Your task to perform on an android device: View the shopping cart on target.com. Add "logitech g pro" to the cart on target.com, then select checkout. Image 0: 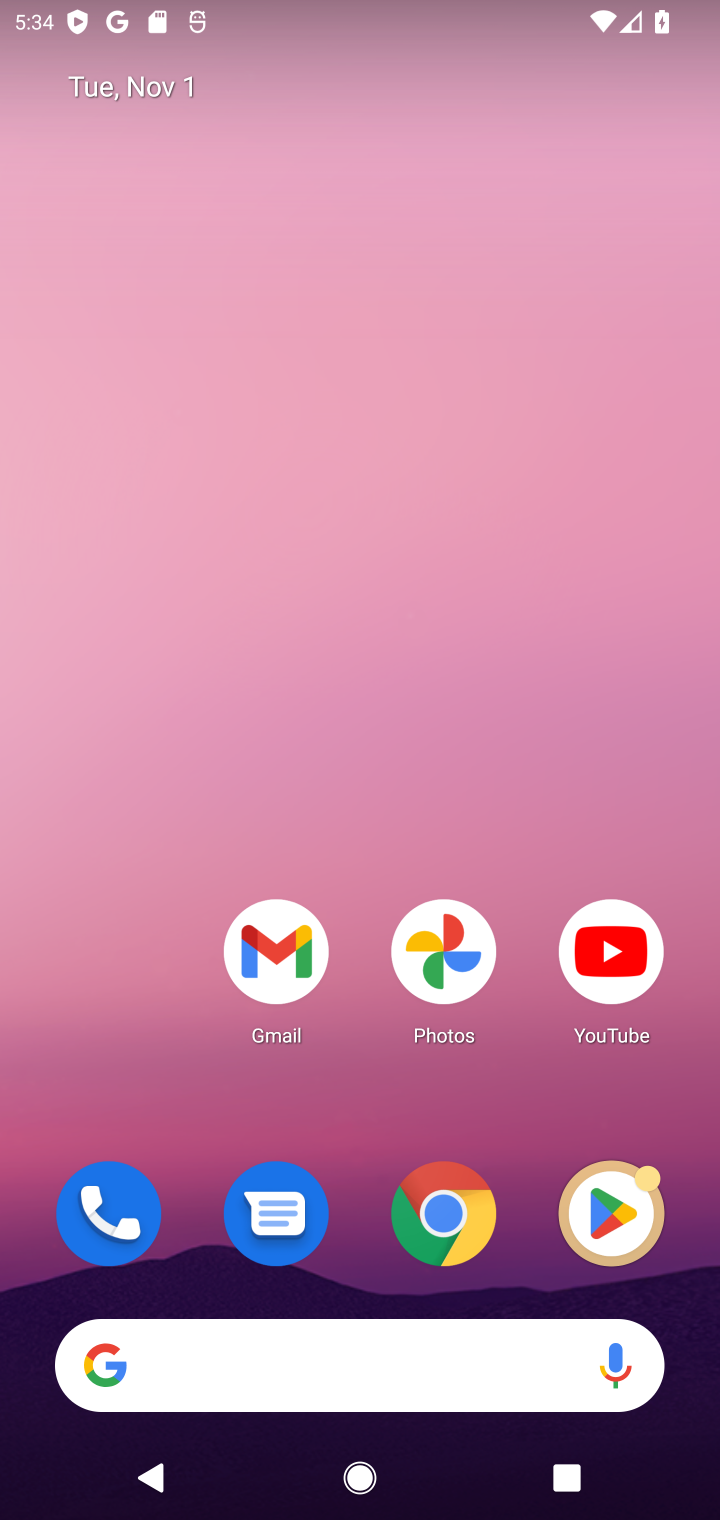
Step 0: click (445, 1221)
Your task to perform on an android device: View the shopping cart on target.com. Add "logitech g pro" to the cart on target.com, then select checkout. Image 1: 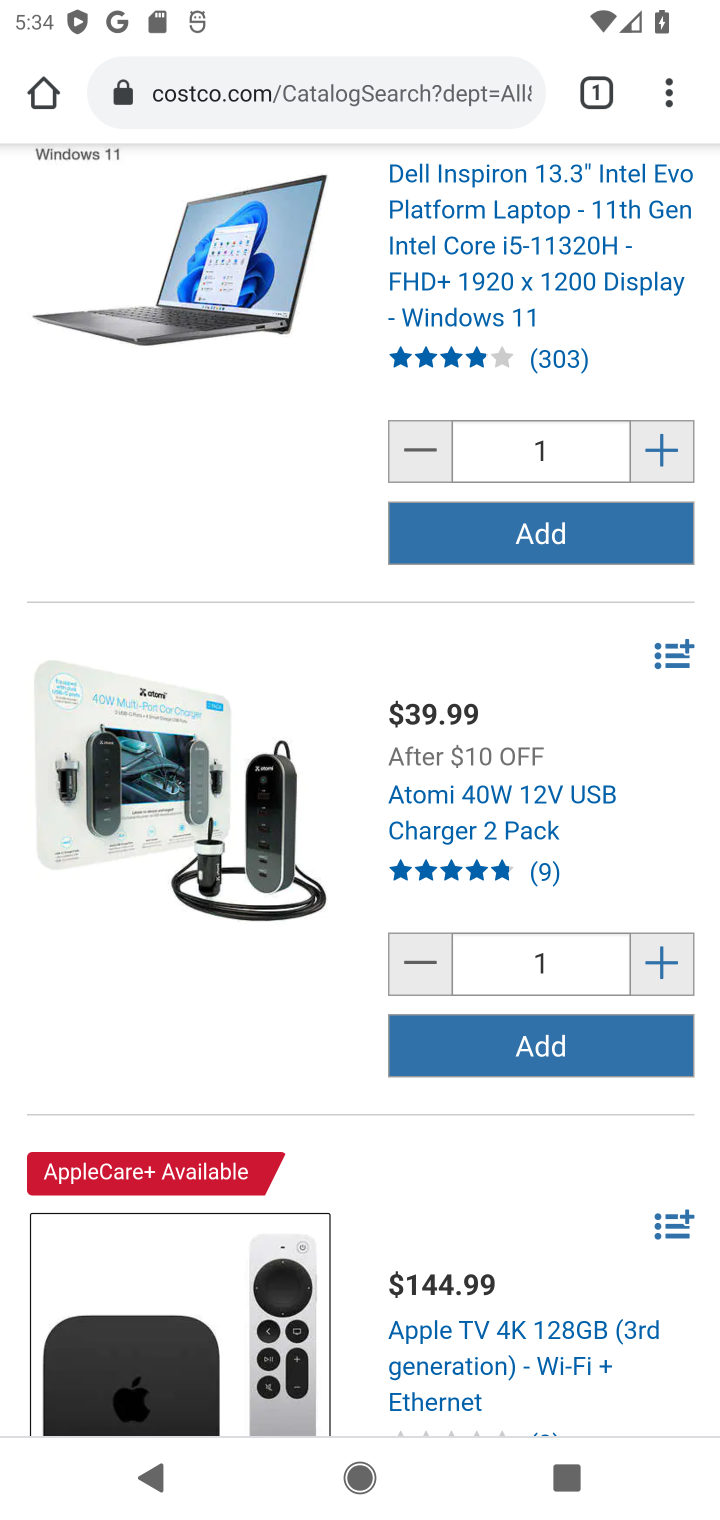
Step 1: click (359, 102)
Your task to perform on an android device: View the shopping cart on target.com. Add "logitech g pro" to the cart on target.com, then select checkout. Image 2: 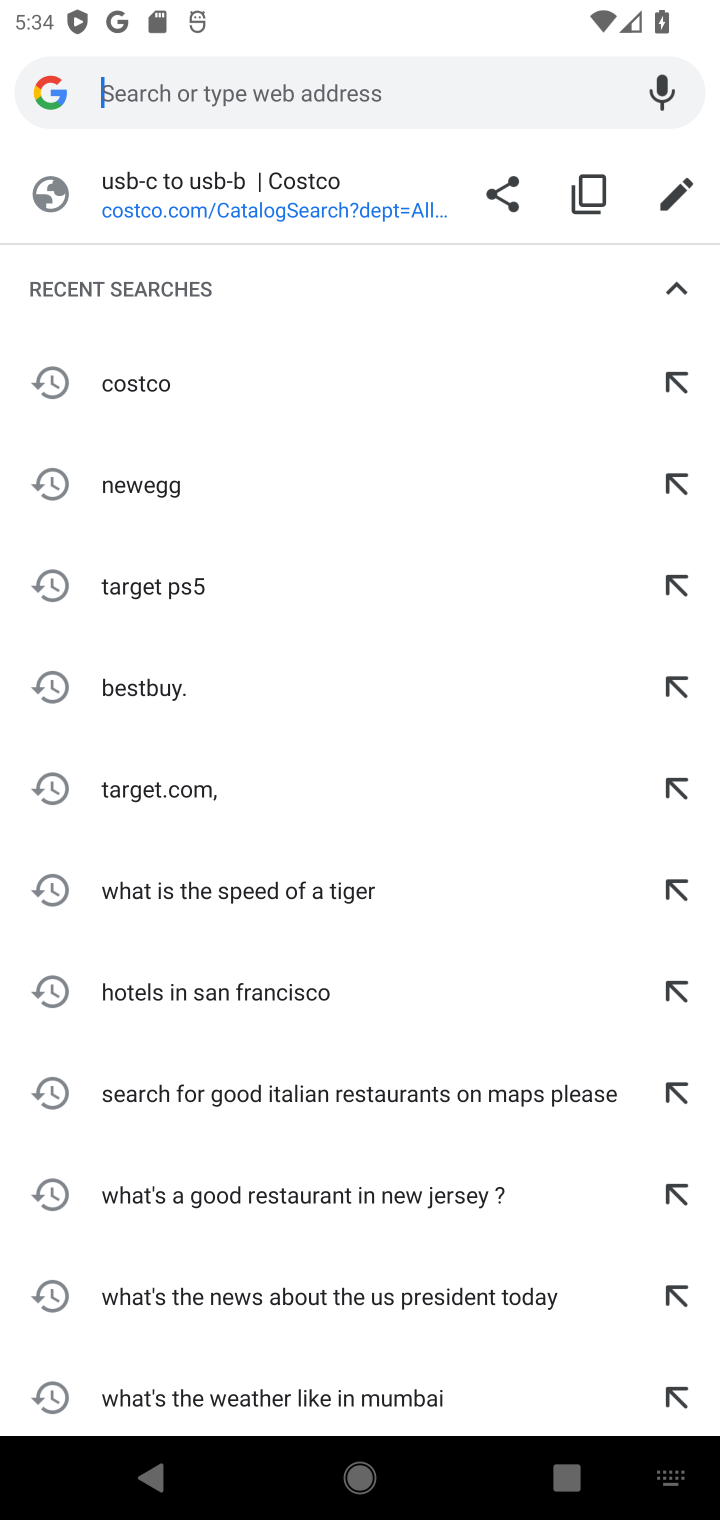
Step 2: click (137, 796)
Your task to perform on an android device: View the shopping cart on target.com. Add "logitech g pro" to the cart on target.com, then select checkout. Image 3: 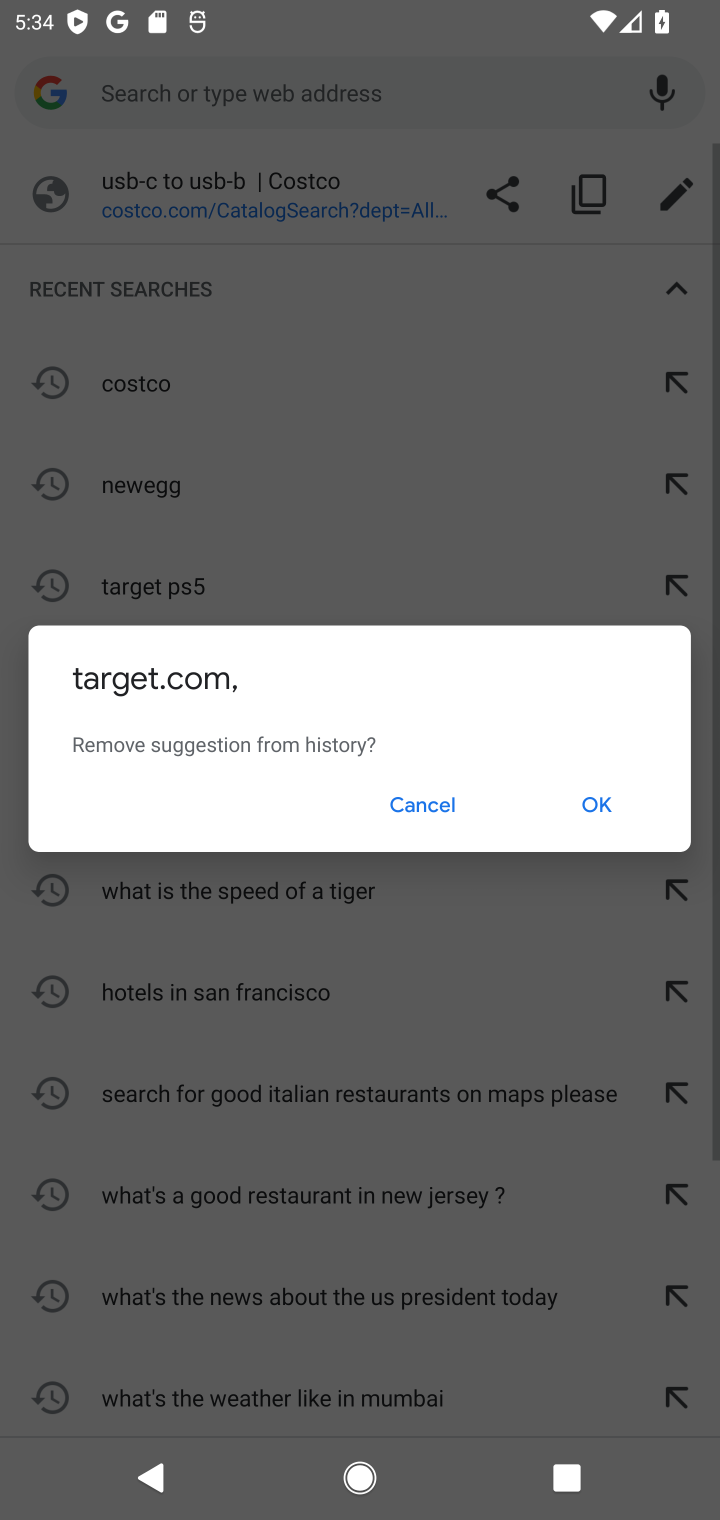
Step 3: click (398, 816)
Your task to perform on an android device: View the shopping cart on target.com. Add "logitech g pro" to the cart on target.com, then select checkout. Image 4: 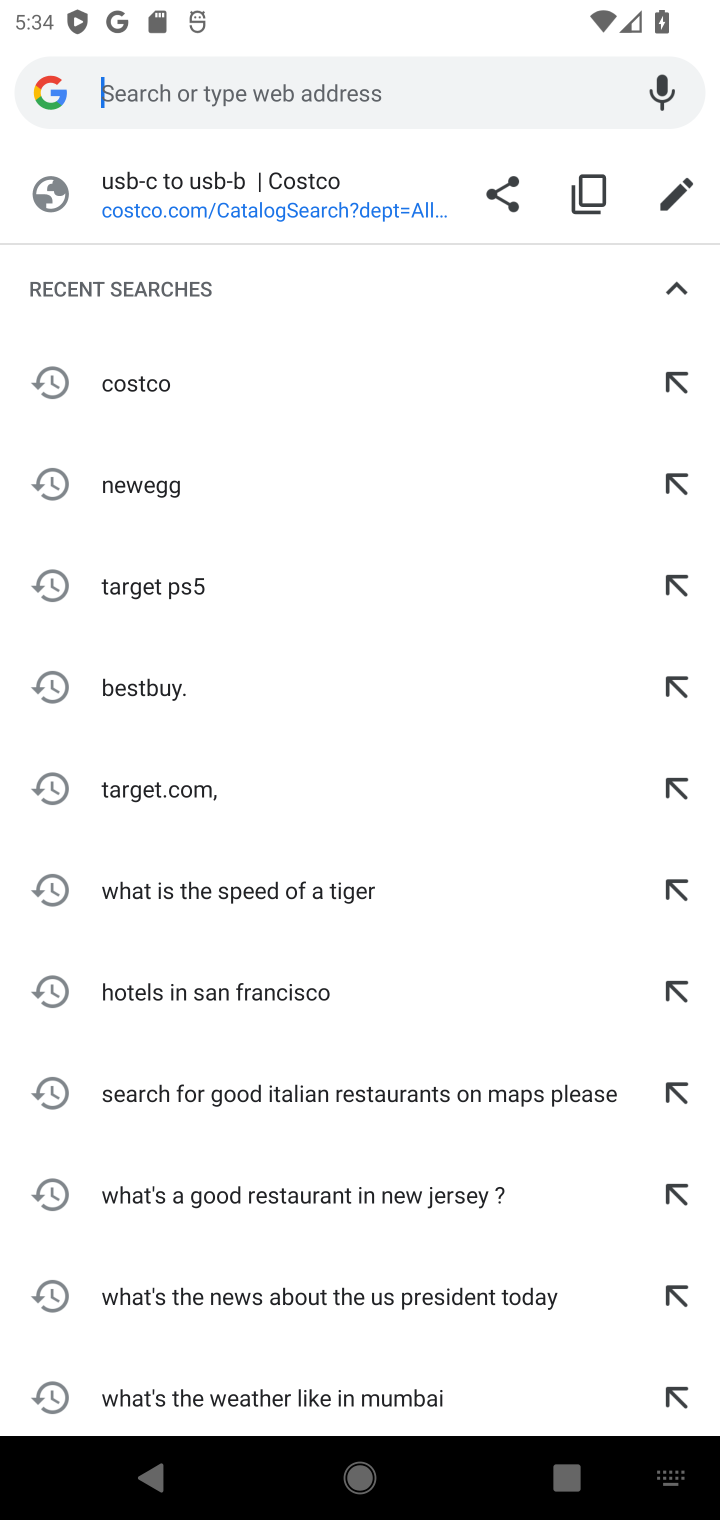
Step 4: click (209, 83)
Your task to perform on an android device: View the shopping cart on target.com. Add "logitech g pro" to the cart on target.com, then select checkout. Image 5: 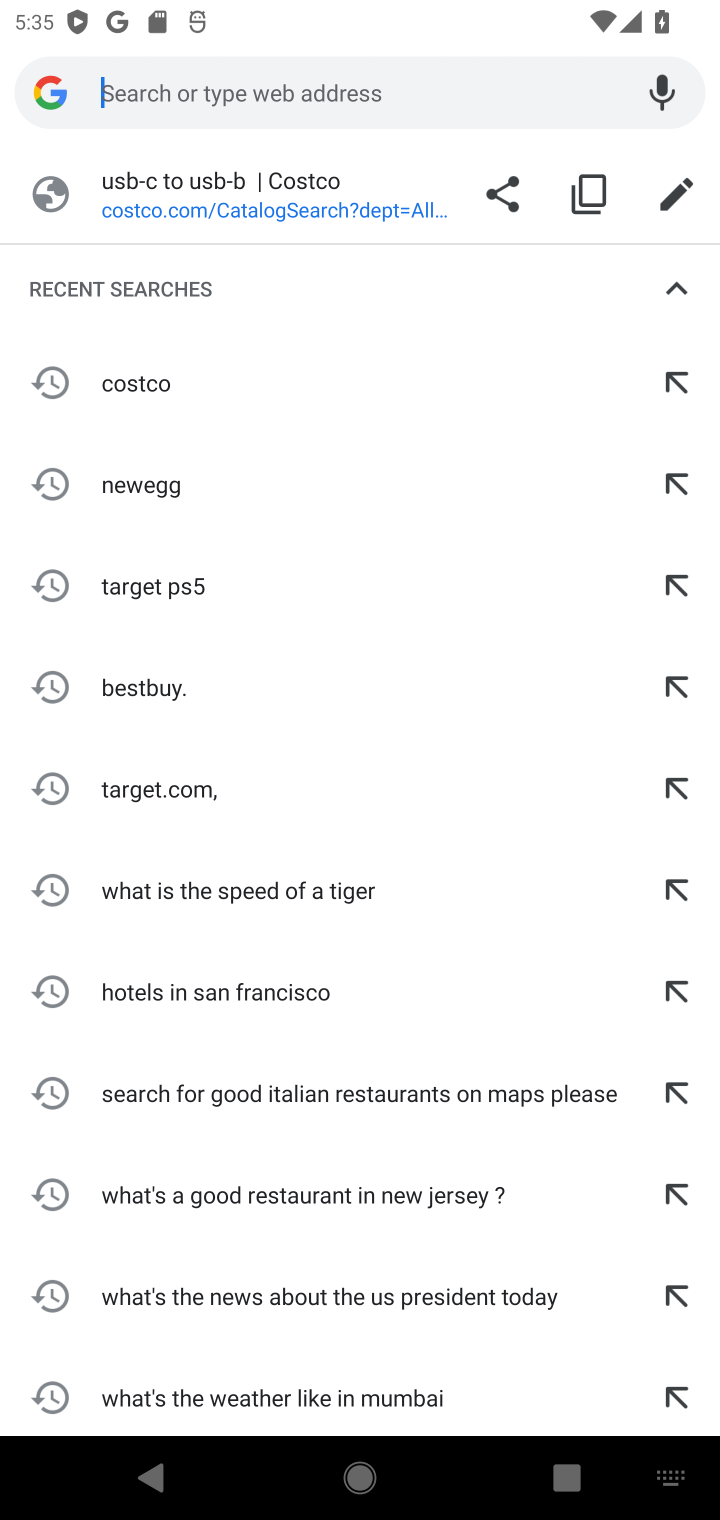
Step 5: type "target.com"
Your task to perform on an android device: View the shopping cart on target.com. Add "logitech g pro" to the cart on target.com, then select checkout. Image 6: 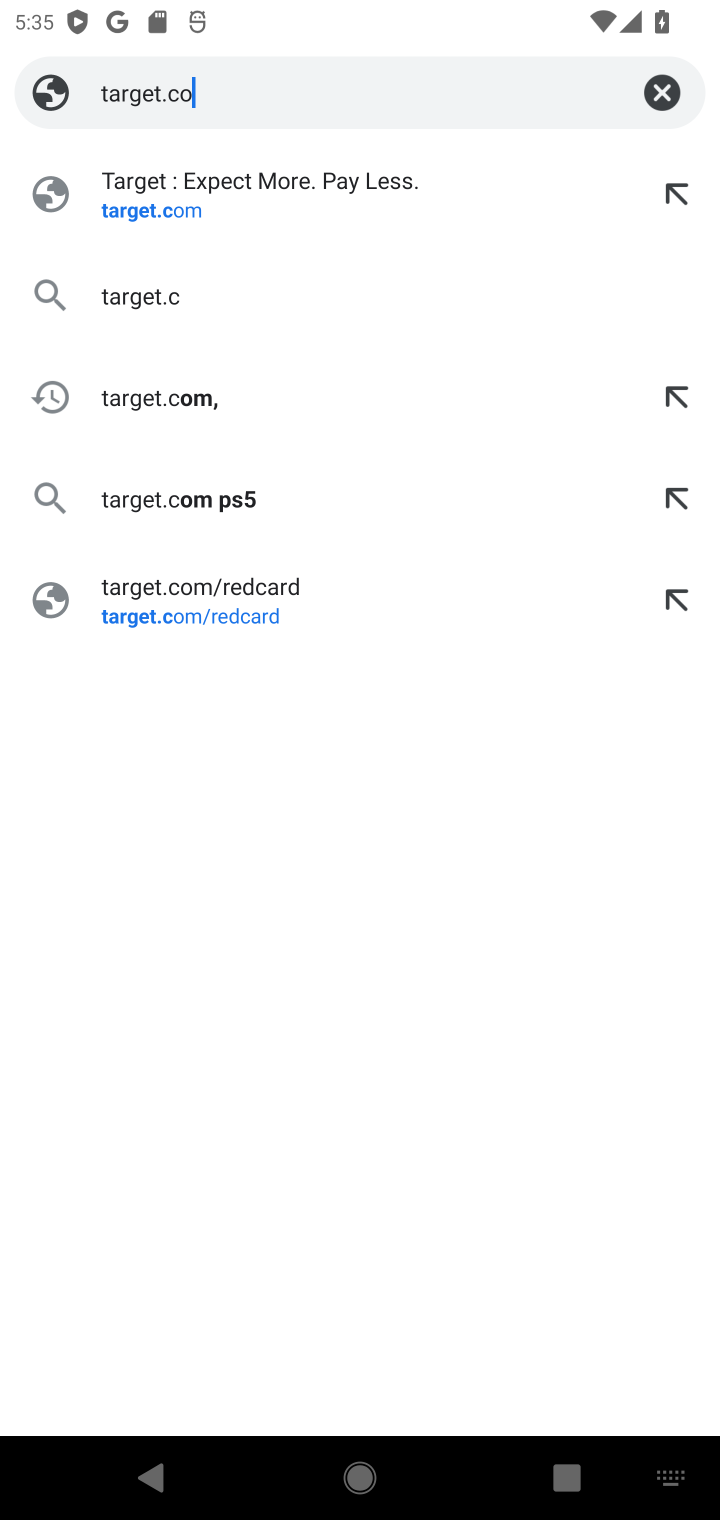
Step 6: type ""
Your task to perform on an android device: View the shopping cart on target.com. Add "logitech g pro" to the cart on target.com, then select checkout. Image 7: 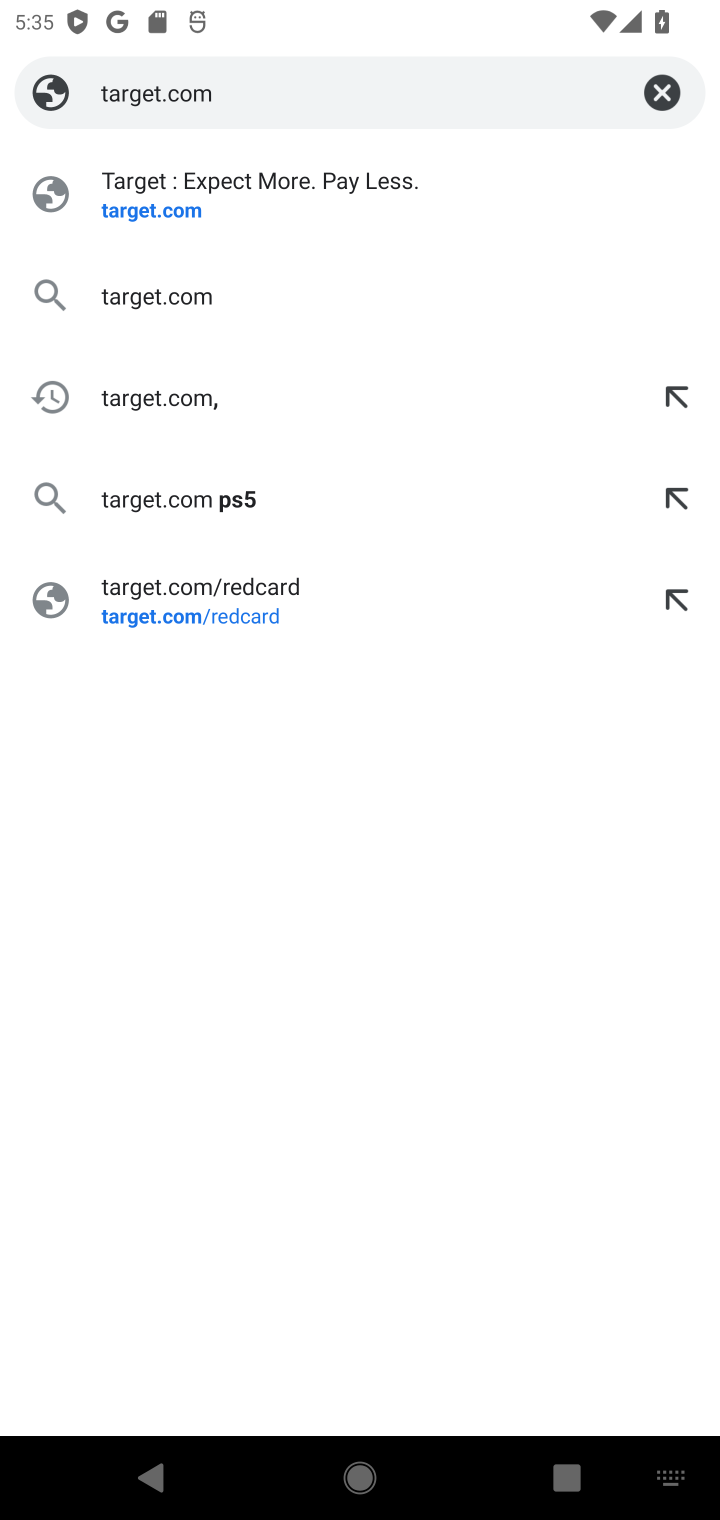
Step 7: click (266, 169)
Your task to perform on an android device: View the shopping cart on target.com. Add "logitech g pro" to the cart on target.com, then select checkout. Image 8: 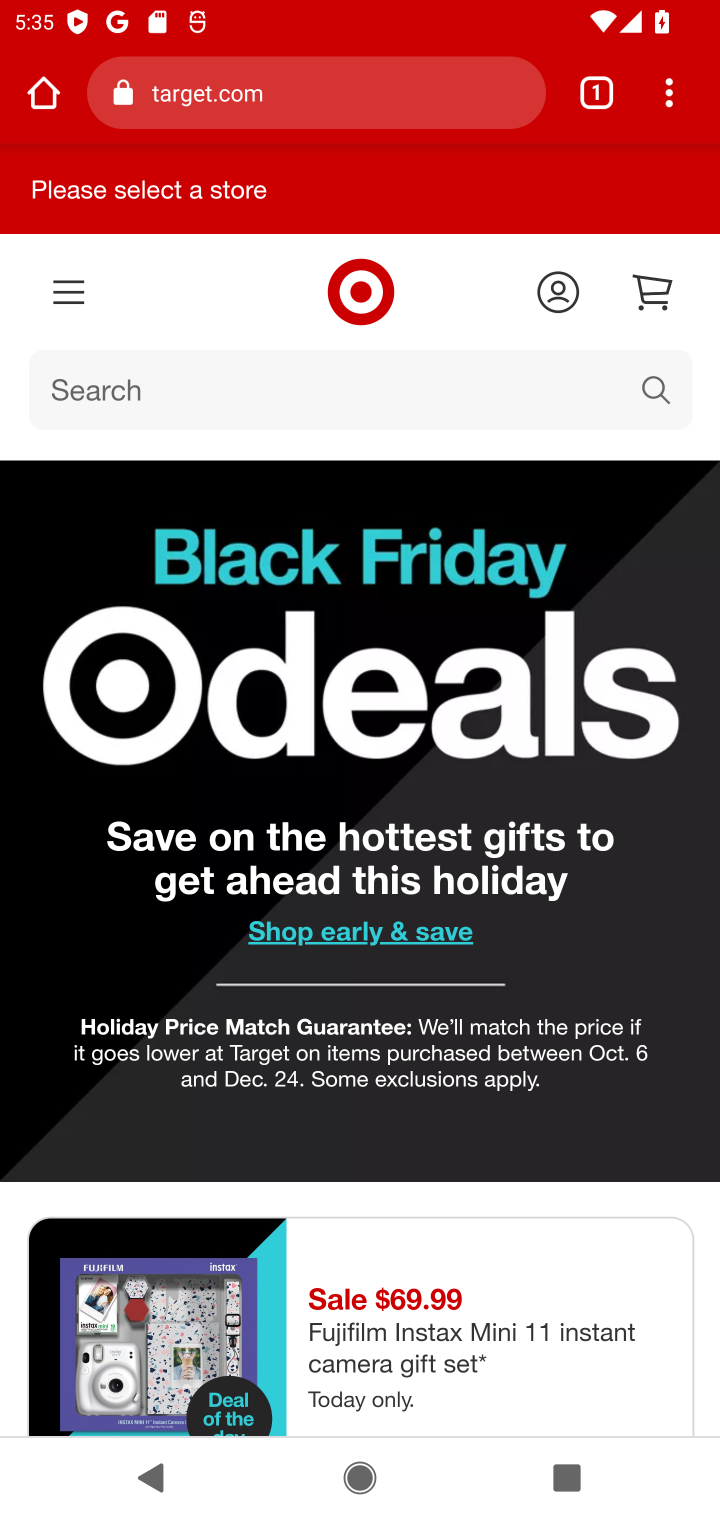
Step 8: click (291, 380)
Your task to perform on an android device: View the shopping cart on target.com. Add "logitech g pro" to the cart on target.com, then select checkout. Image 9: 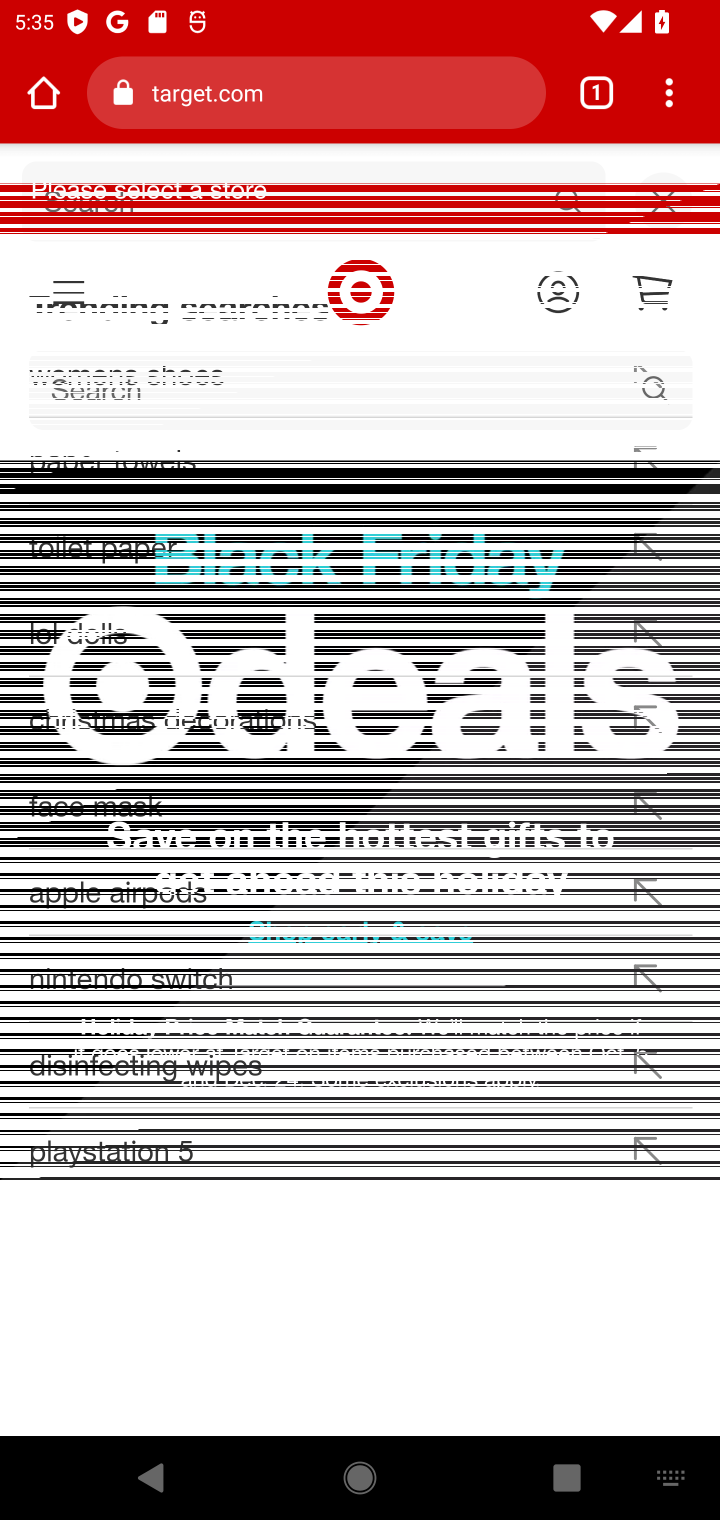
Step 9: type "logitech g pro"
Your task to perform on an android device: View the shopping cart on target.com. Add "logitech g pro" to the cart on target.com, then select checkout. Image 10: 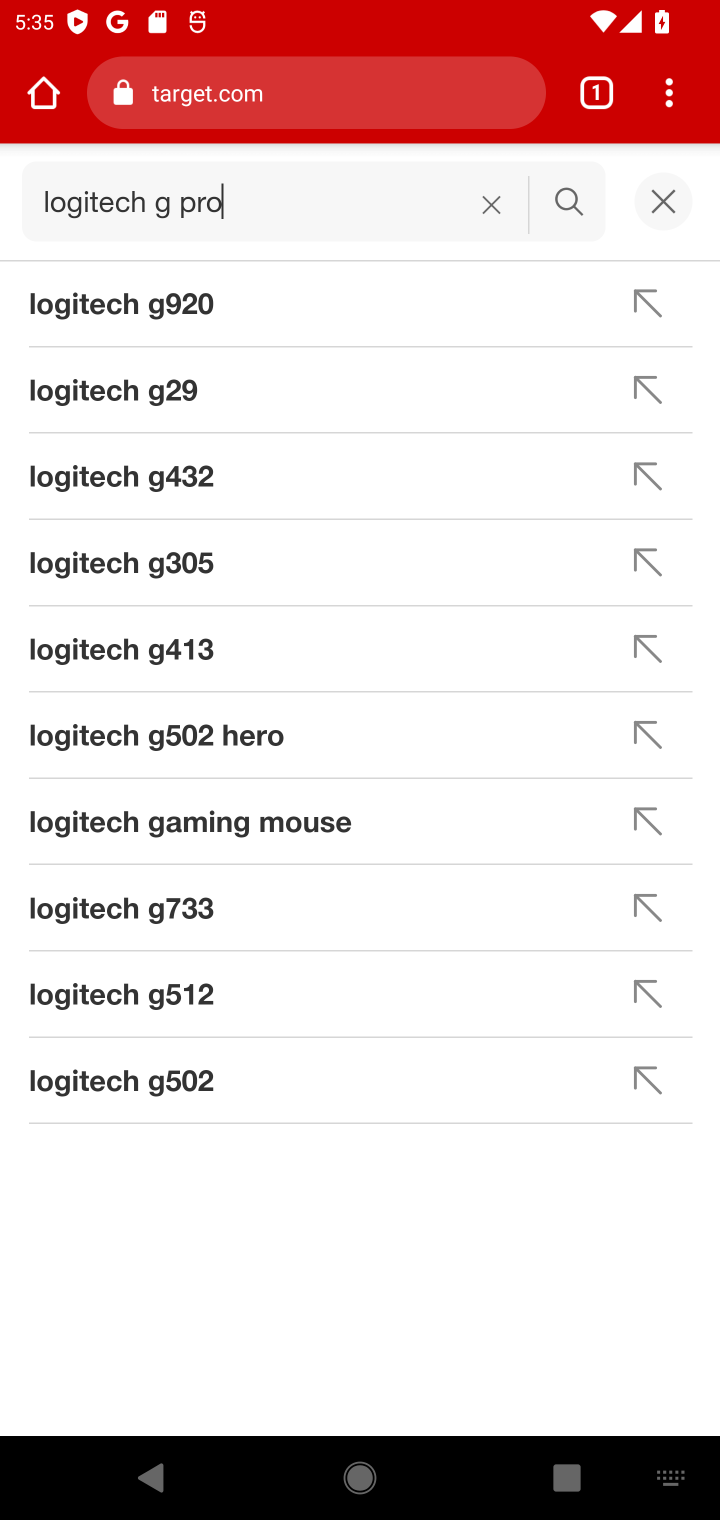
Step 10: click (226, 289)
Your task to perform on an android device: View the shopping cart on target.com. Add "logitech g pro" to the cart on target.com, then select checkout. Image 11: 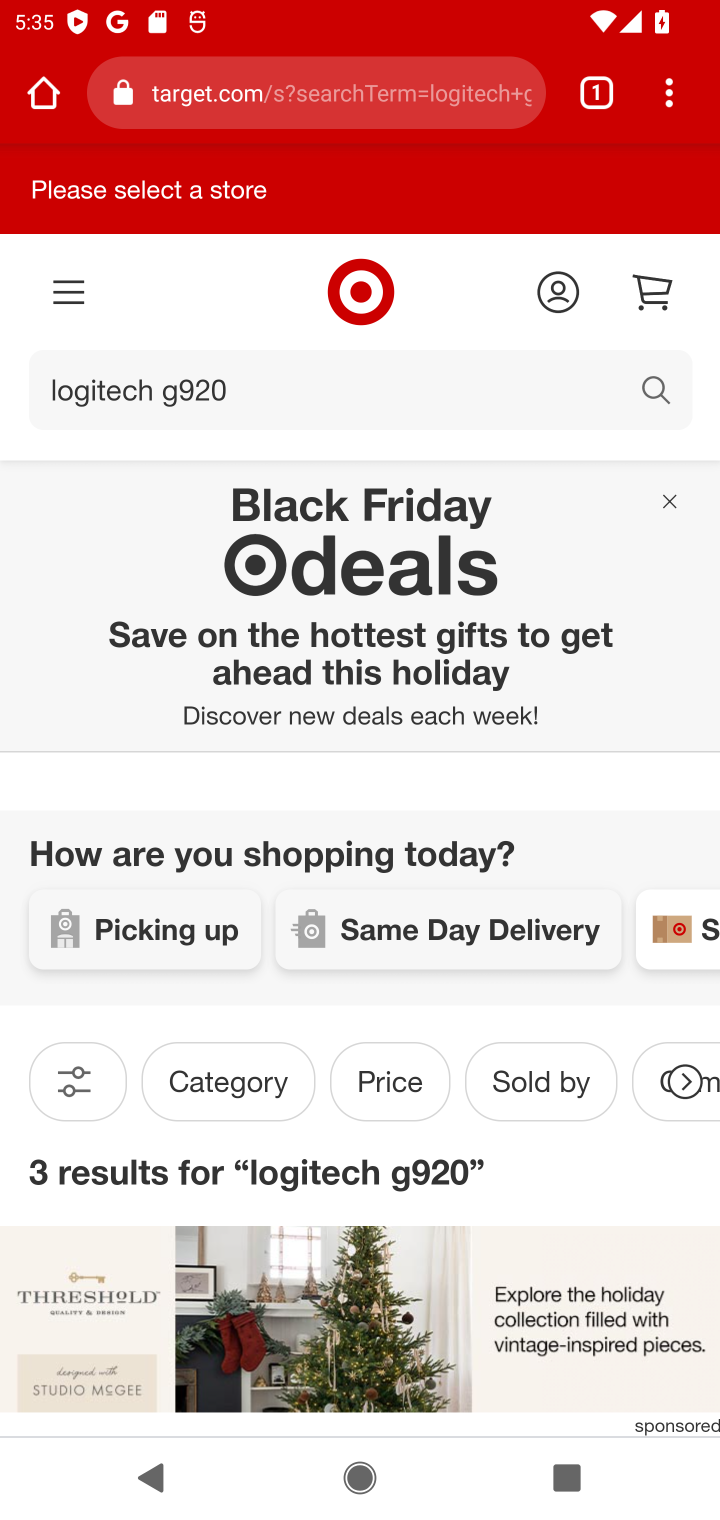
Step 11: drag from (477, 607) to (537, 206)
Your task to perform on an android device: View the shopping cart on target.com. Add "logitech g pro" to the cart on target.com, then select checkout. Image 12: 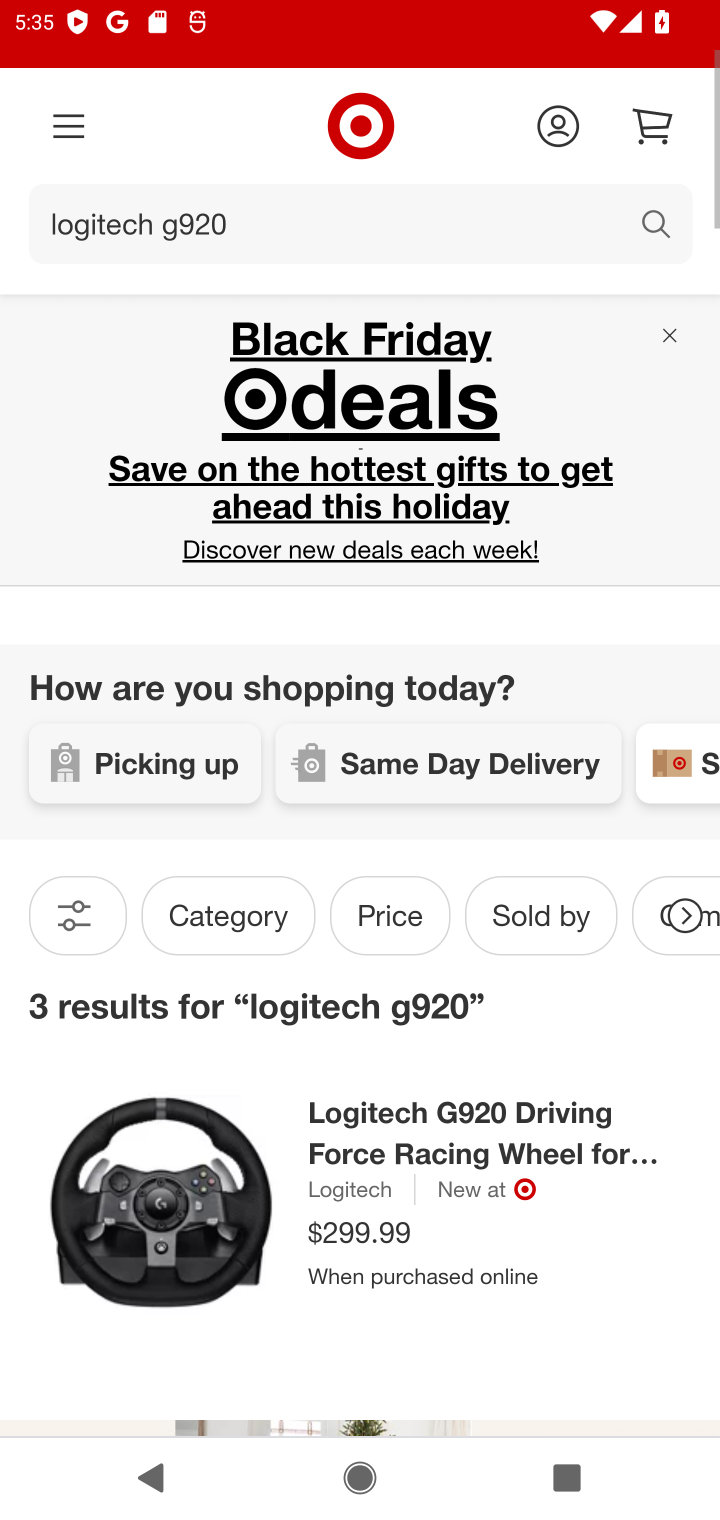
Step 12: drag from (490, 805) to (546, 605)
Your task to perform on an android device: View the shopping cart on target.com. Add "logitech g pro" to the cart on target.com, then select checkout. Image 13: 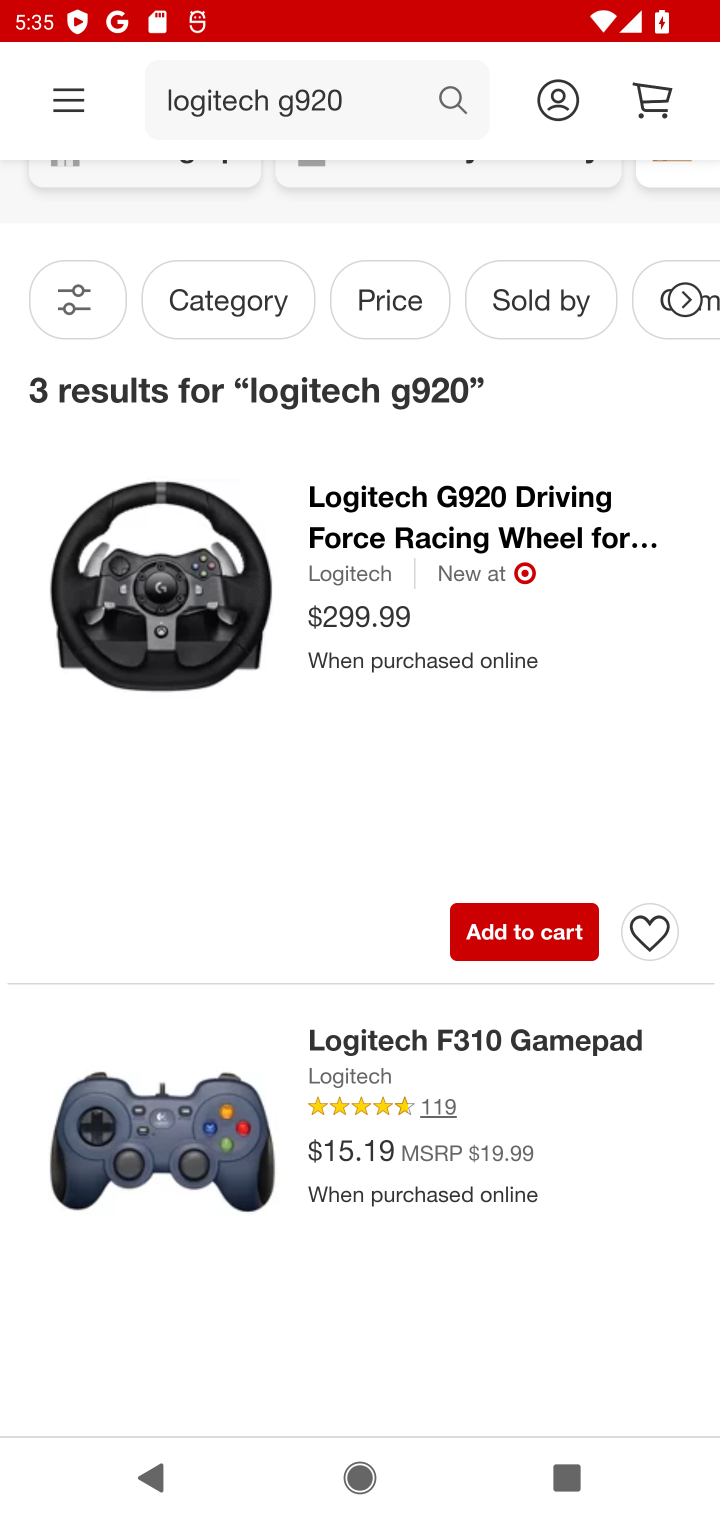
Step 13: click (556, 1071)
Your task to perform on an android device: View the shopping cart on target.com. Add "logitech g pro" to the cart on target.com, then select checkout. Image 14: 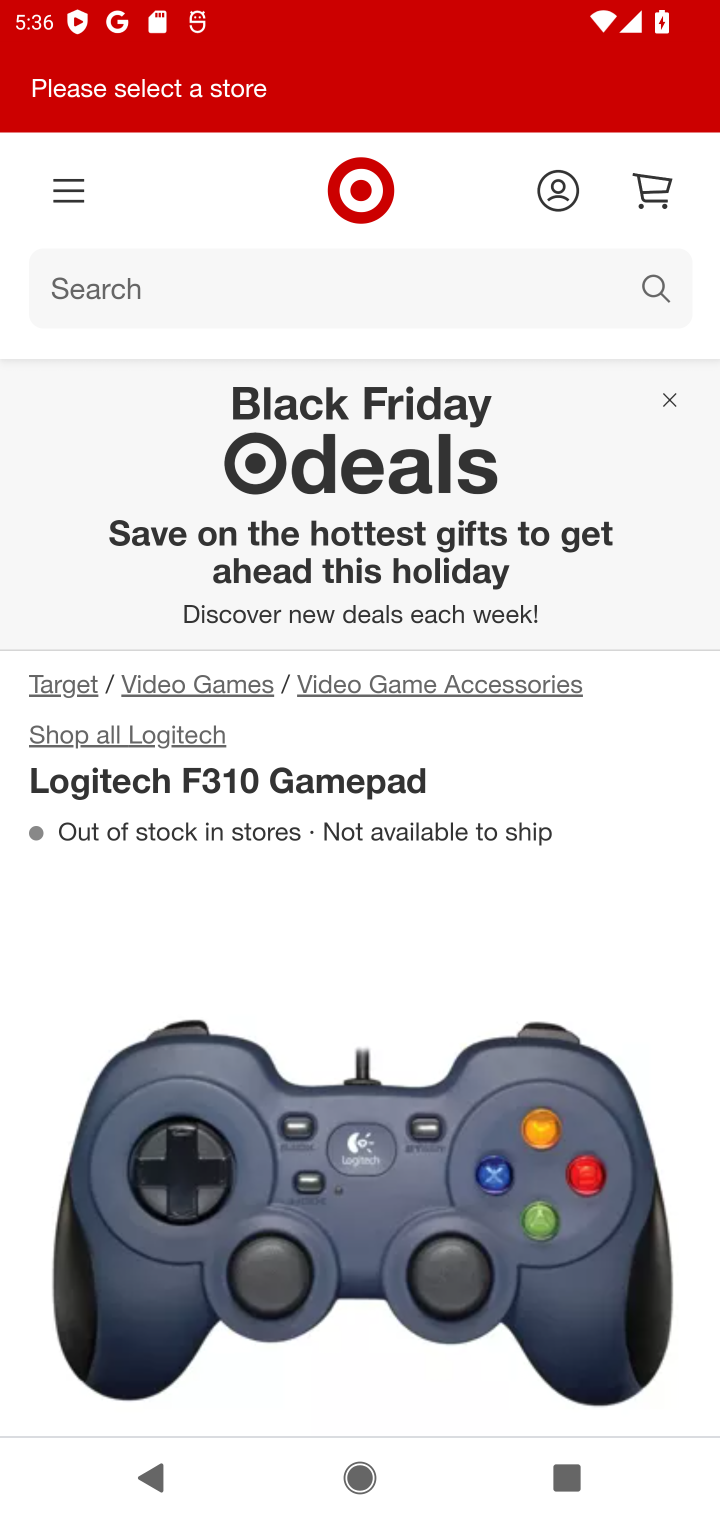
Step 14: drag from (495, 1199) to (560, 471)
Your task to perform on an android device: View the shopping cart on target.com. Add "logitech g pro" to the cart on target.com, then select checkout. Image 15: 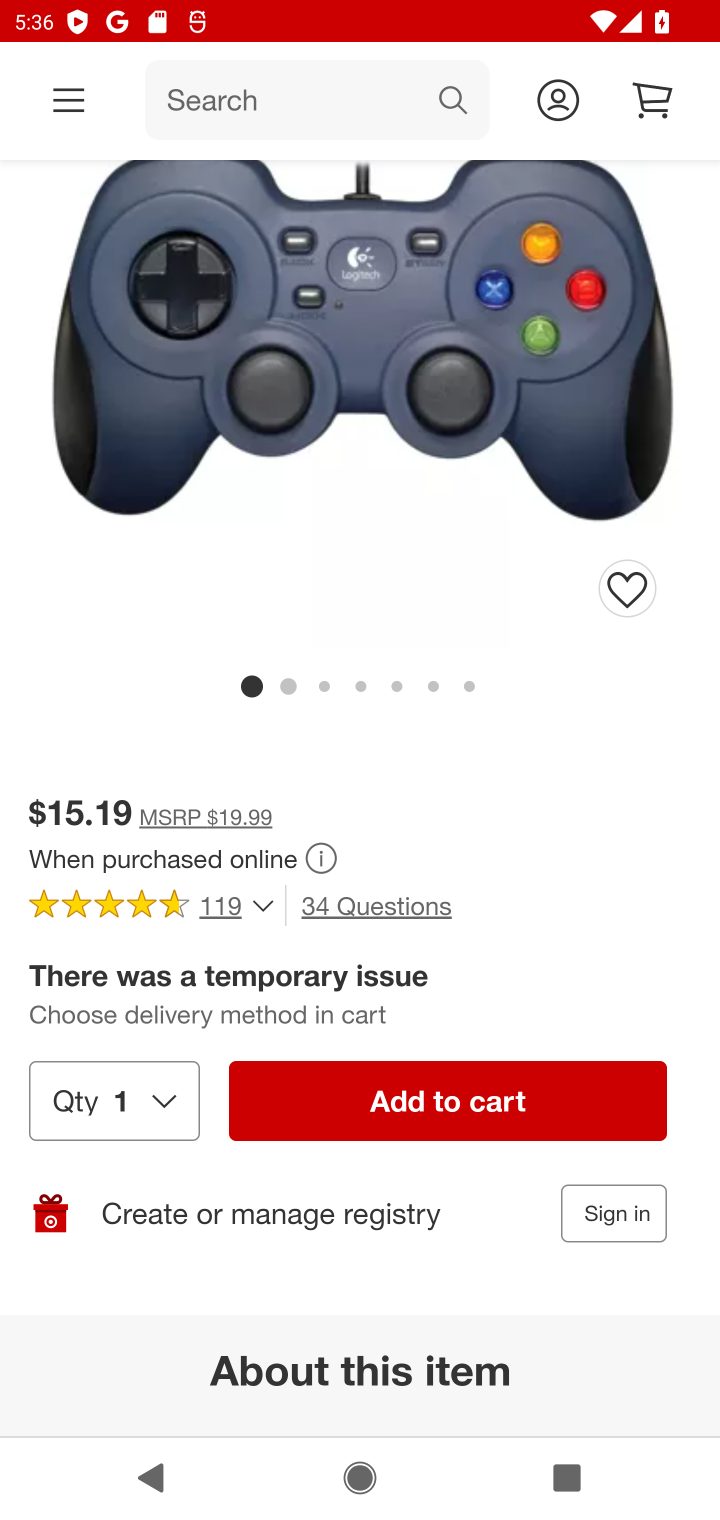
Step 15: click (394, 1065)
Your task to perform on an android device: View the shopping cart on target.com. Add "logitech g pro" to the cart on target.com, then select checkout. Image 16: 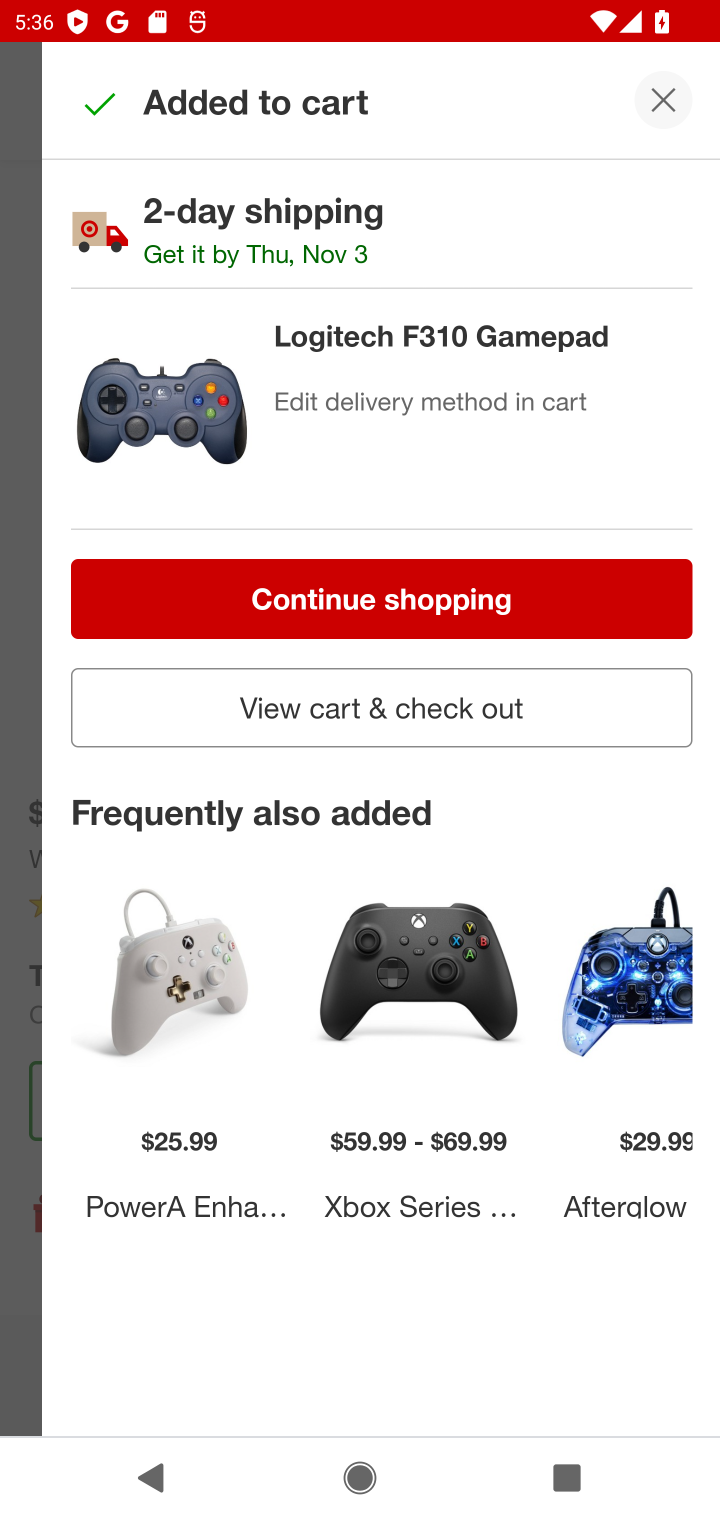
Step 16: click (500, 619)
Your task to perform on an android device: View the shopping cart on target.com. Add "logitech g pro" to the cart on target.com, then select checkout. Image 17: 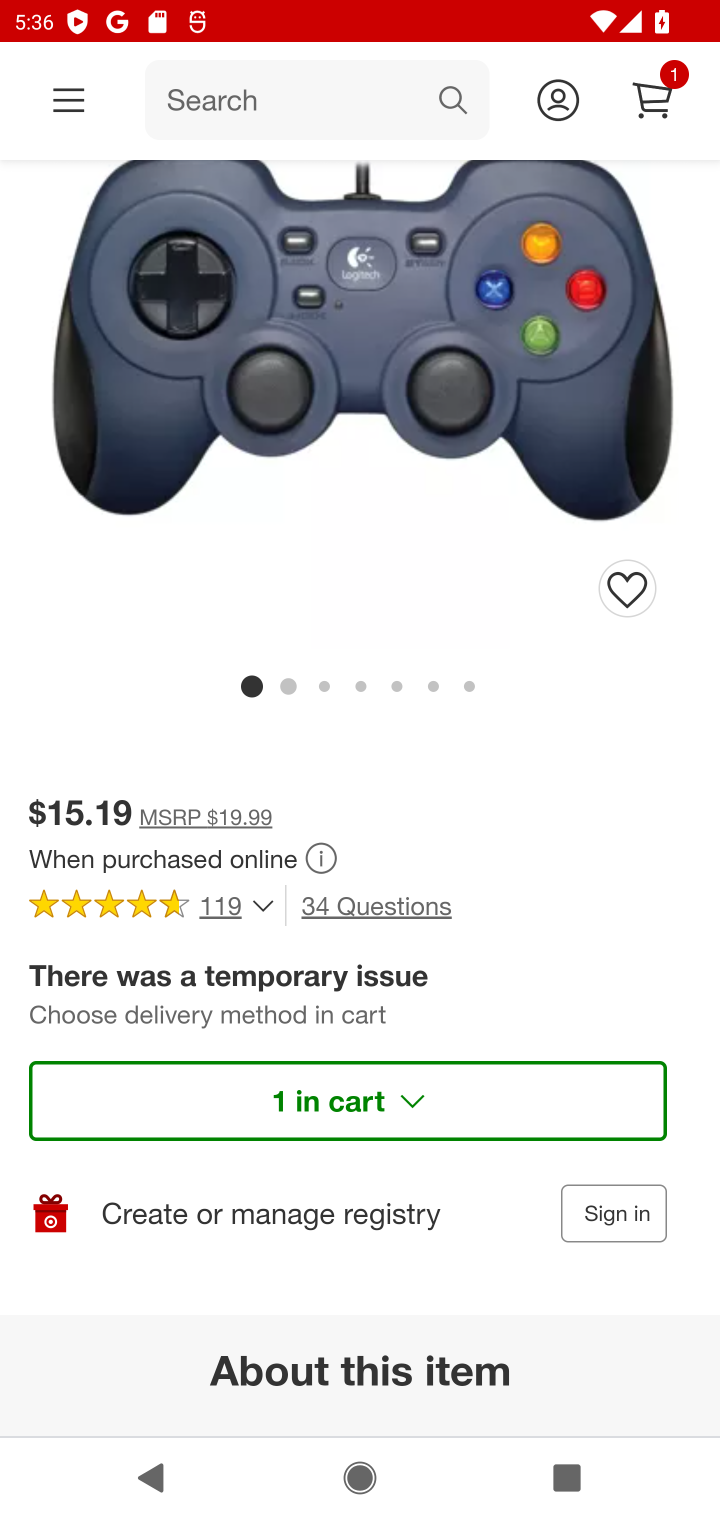
Step 17: click (642, 112)
Your task to perform on an android device: View the shopping cart on target.com. Add "logitech g pro" to the cart on target.com, then select checkout. Image 18: 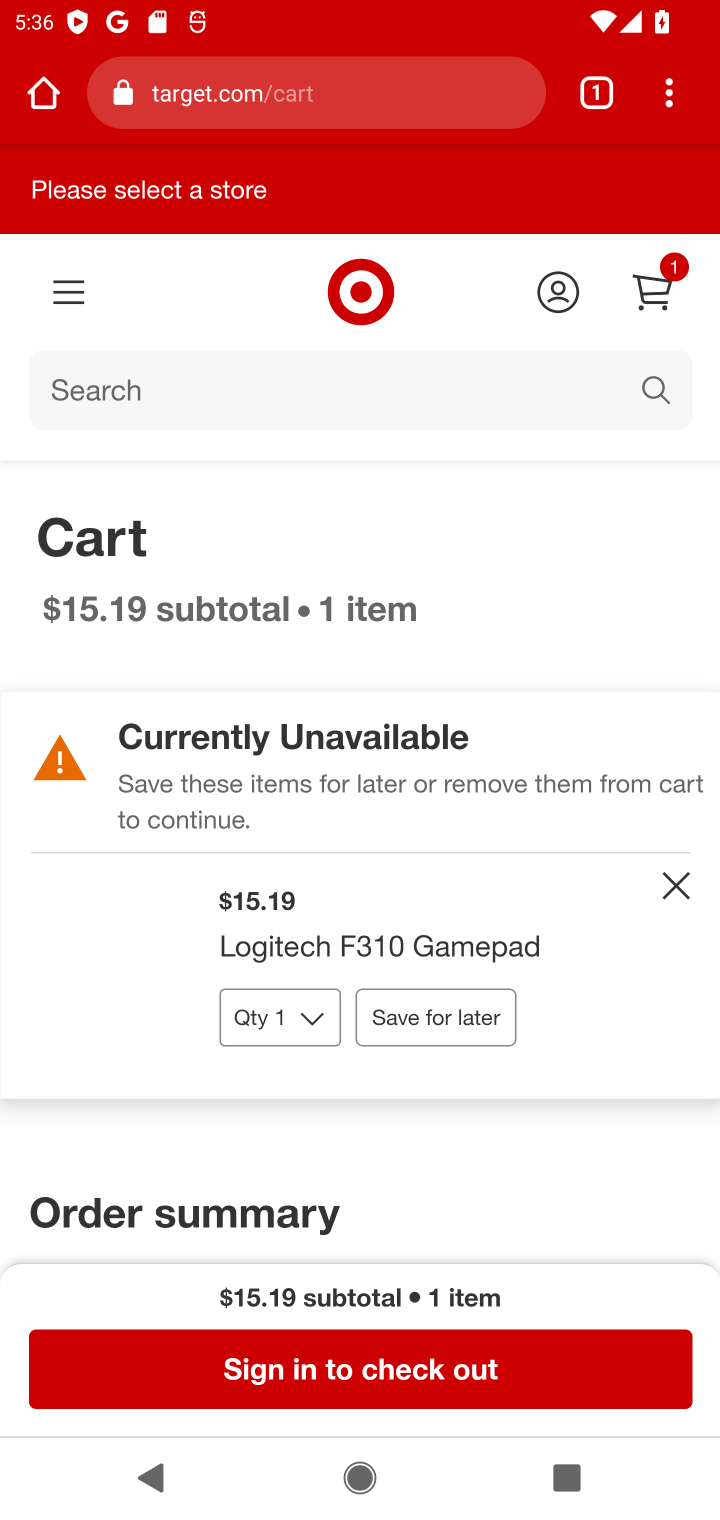
Step 18: click (681, 883)
Your task to perform on an android device: View the shopping cart on target.com. Add "logitech g pro" to the cart on target.com, then select checkout. Image 19: 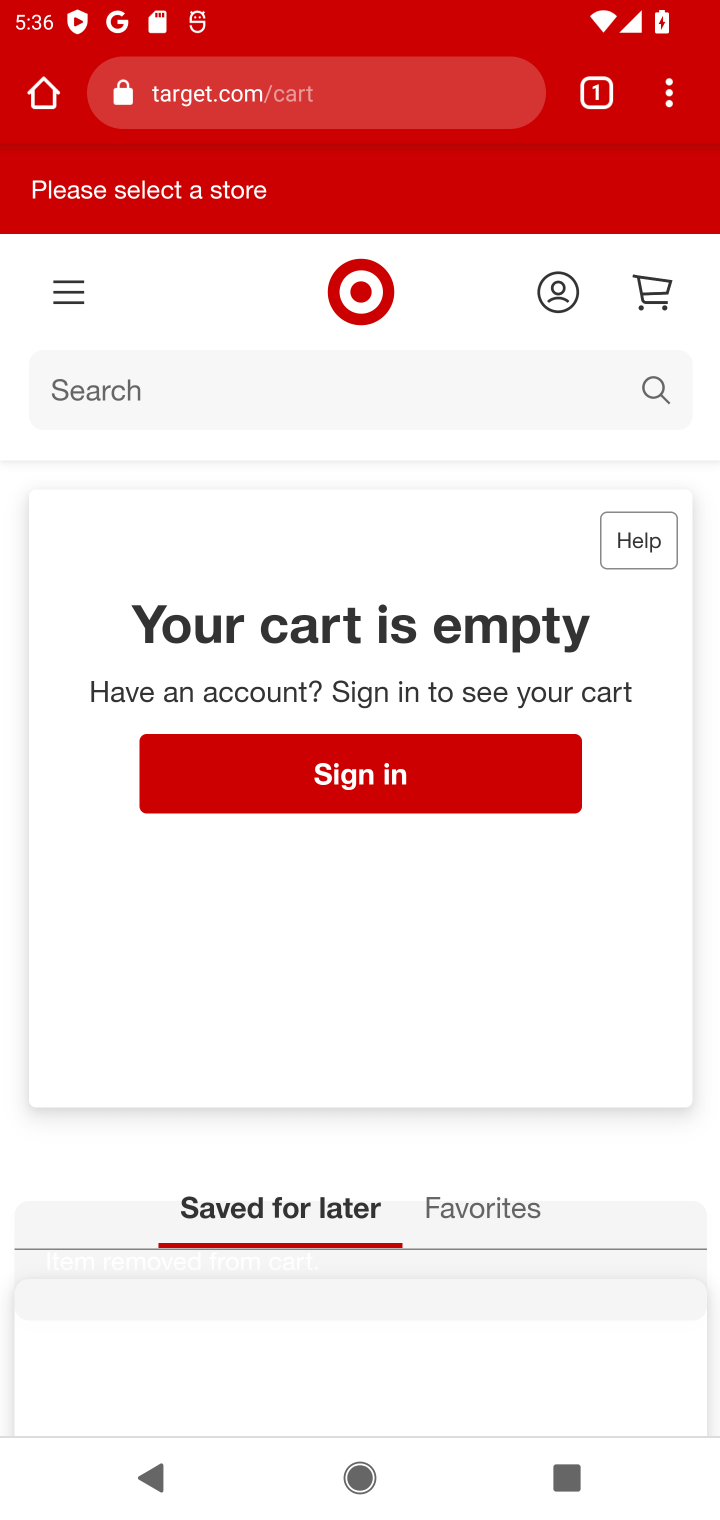
Step 19: click (325, 381)
Your task to perform on an android device: View the shopping cart on target.com. Add "logitech g pro" to the cart on target.com, then select checkout. Image 20: 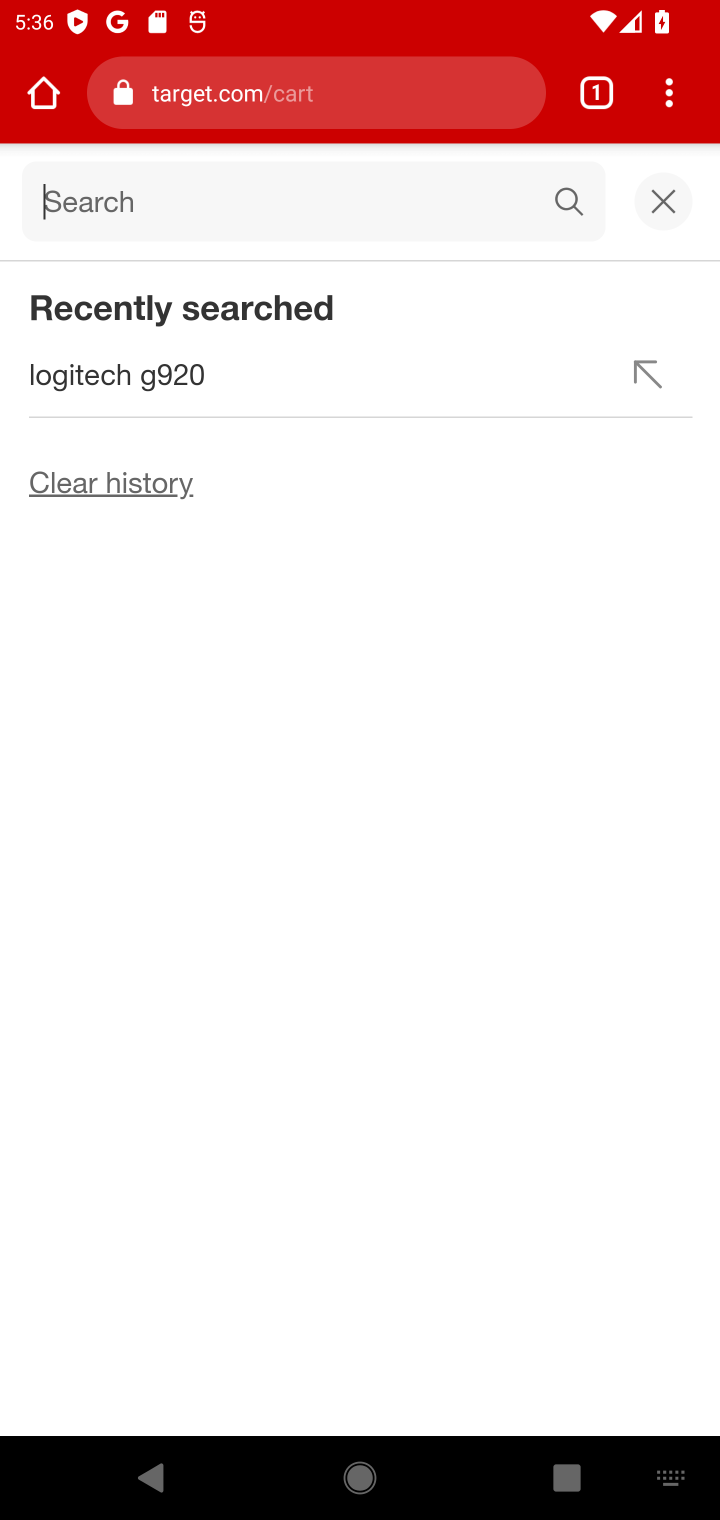
Step 20: type "logitech g pro"
Your task to perform on an android device: View the shopping cart on target.com. Add "logitech g pro" to the cart on target.com, then select checkout. Image 21: 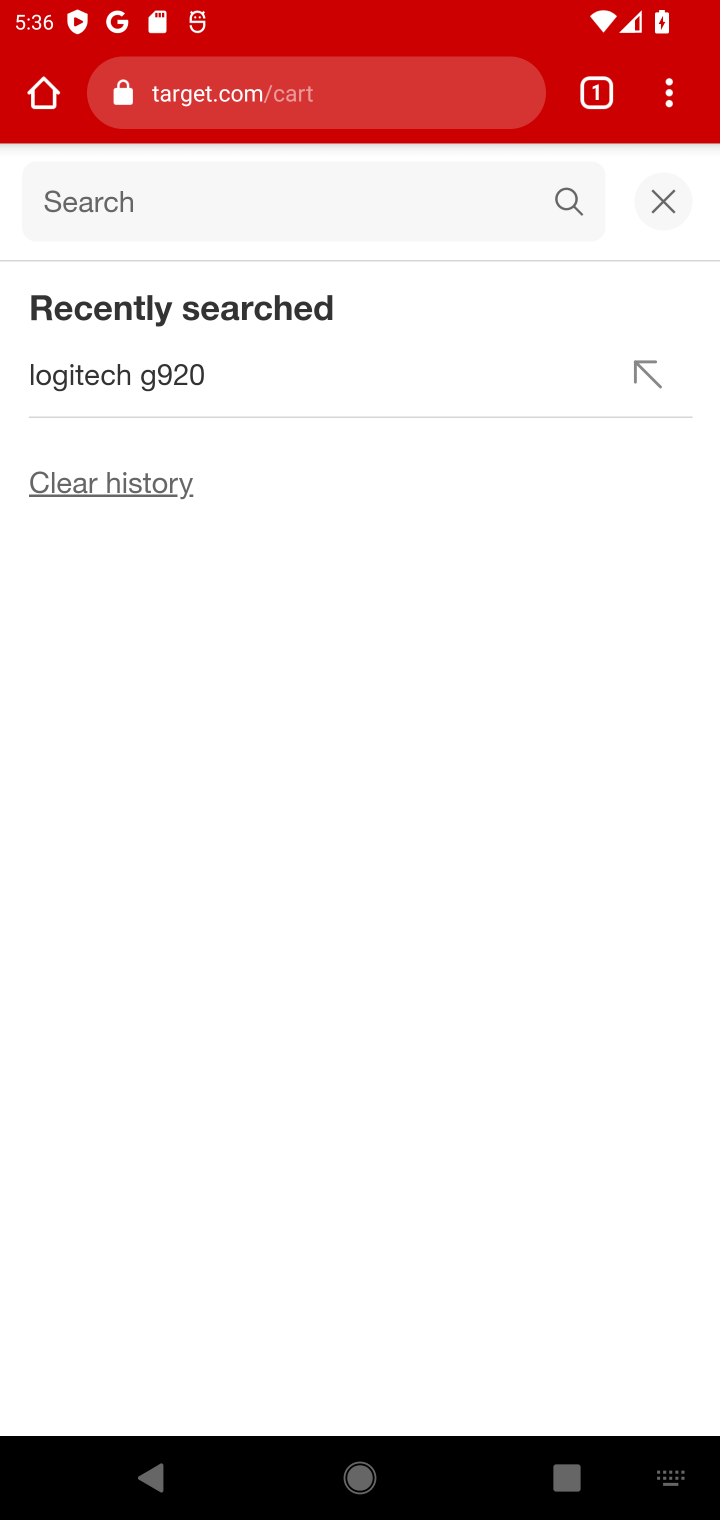
Step 21: type ""
Your task to perform on an android device: View the shopping cart on target.com. Add "logitech g pro" to the cart on target.com, then select checkout. Image 22: 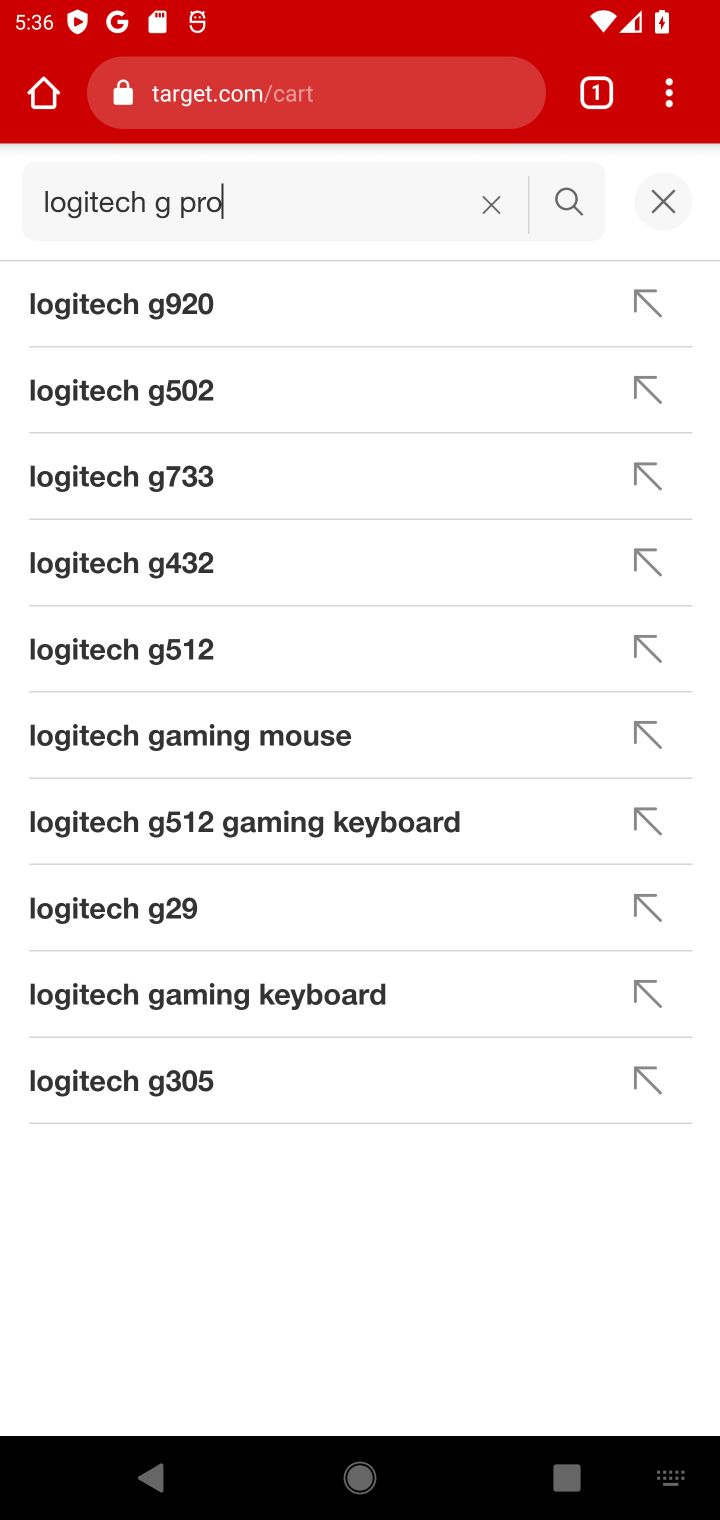
Step 22: press enter
Your task to perform on an android device: View the shopping cart on target.com. Add "logitech g pro" to the cart on target.com, then select checkout. Image 23: 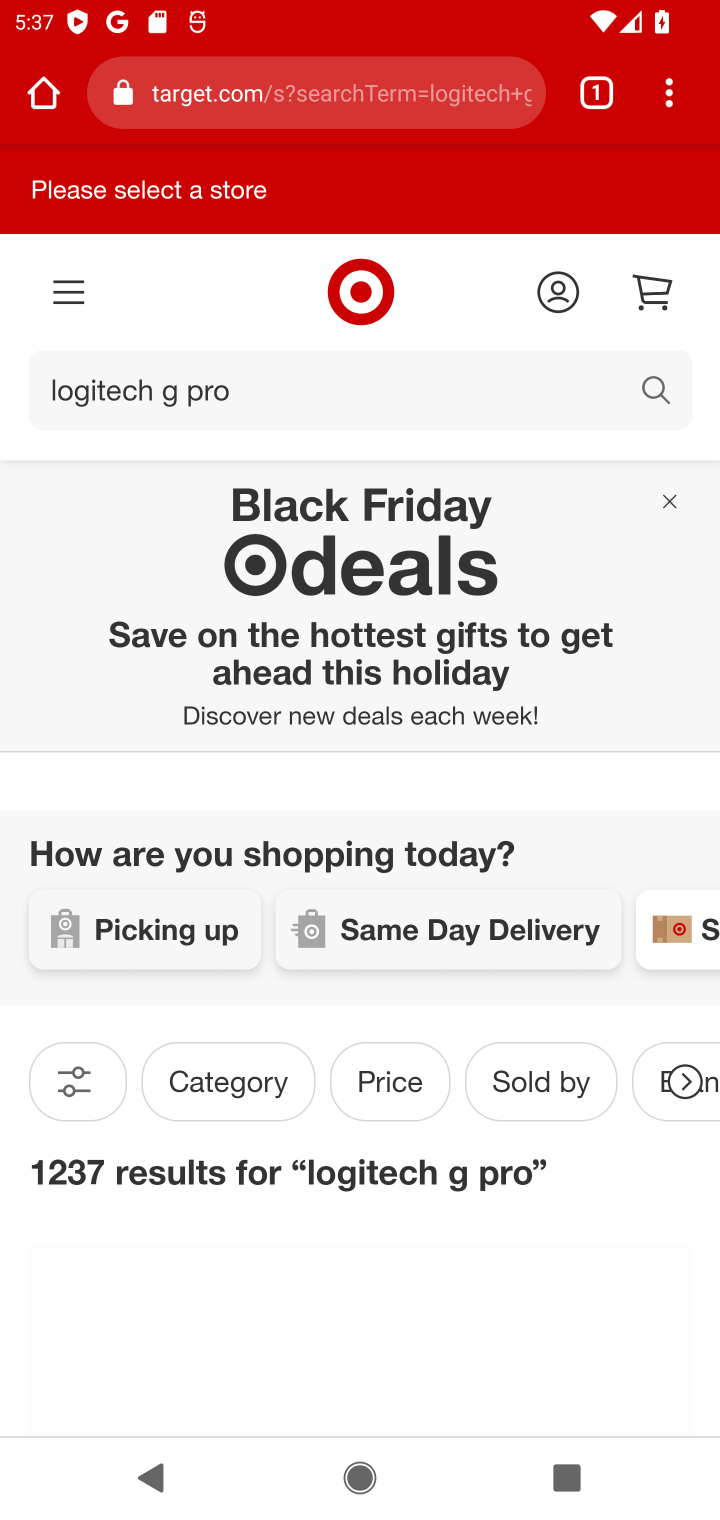
Step 23: drag from (377, 1151) to (354, 425)
Your task to perform on an android device: View the shopping cart on target.com. Add "logitech g pro" to the cart on target.com, then select checkout. Image 24: 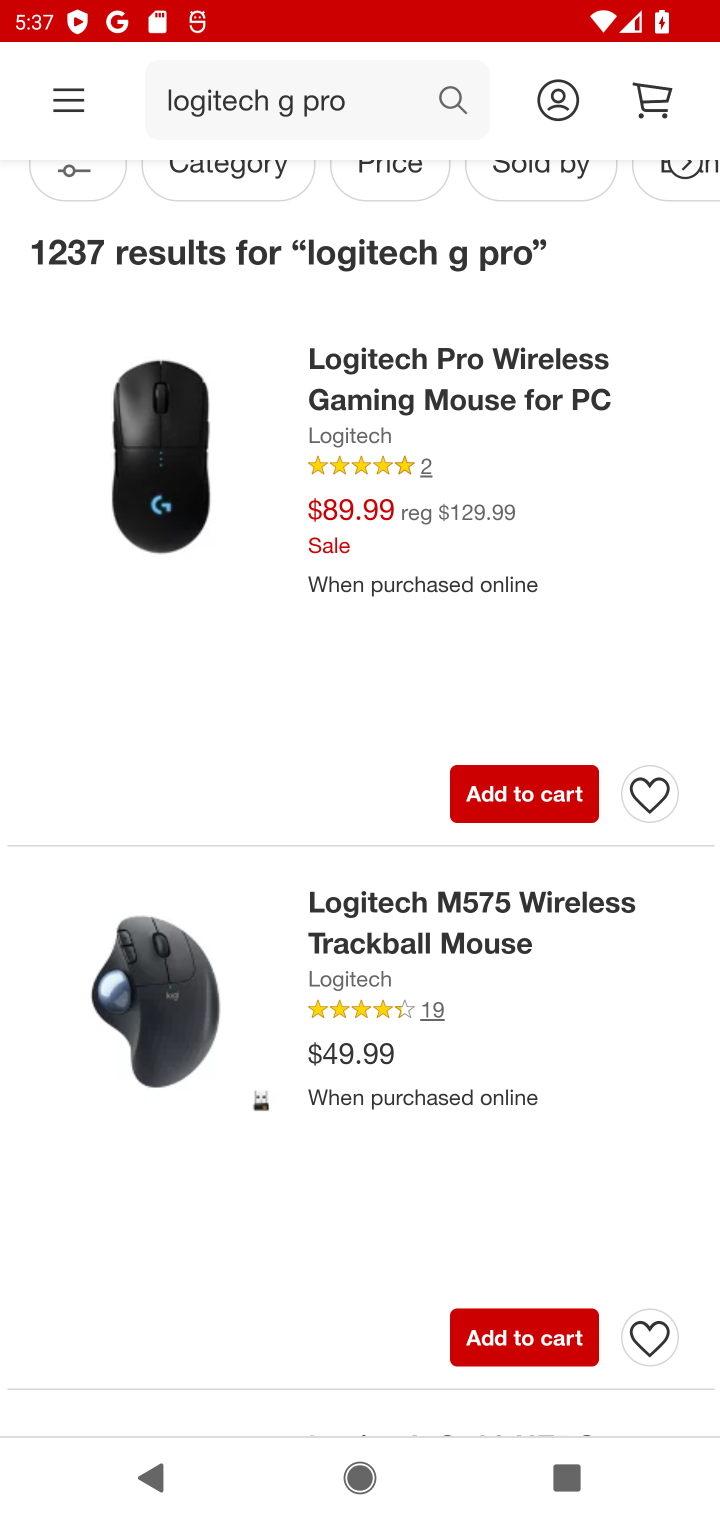
Step 24: click (404, 355)
Your task to perform on an android device: View the shopping cart on target.com. Add "logitech g pro" to the cart on target.com, then select checkout. Image 25: 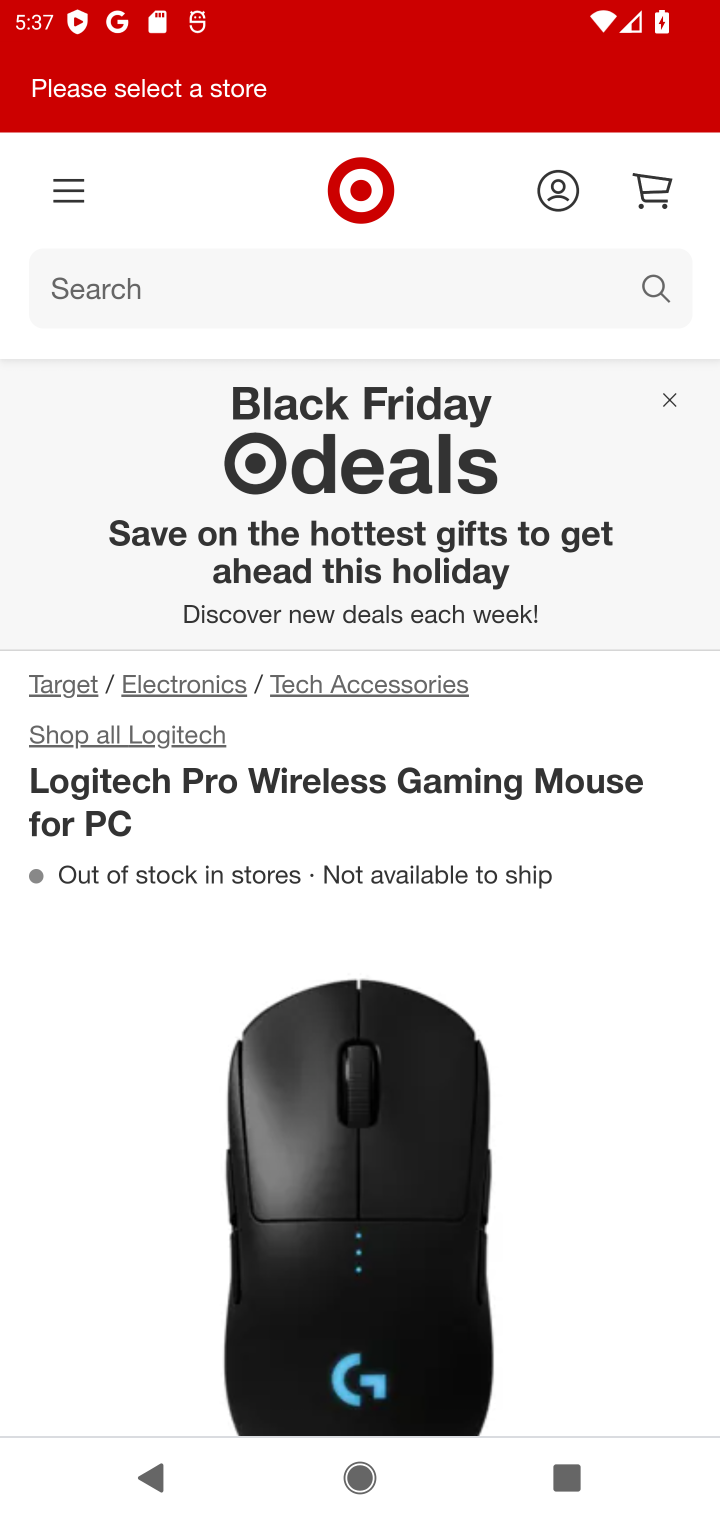
Step 25: drag from (451, 844) to (442, 476)
Your task to perform on an android device: View the shopping cart on target.com. Add "logitech g pro" to the cart on target.com, then select checkout. Image 26: 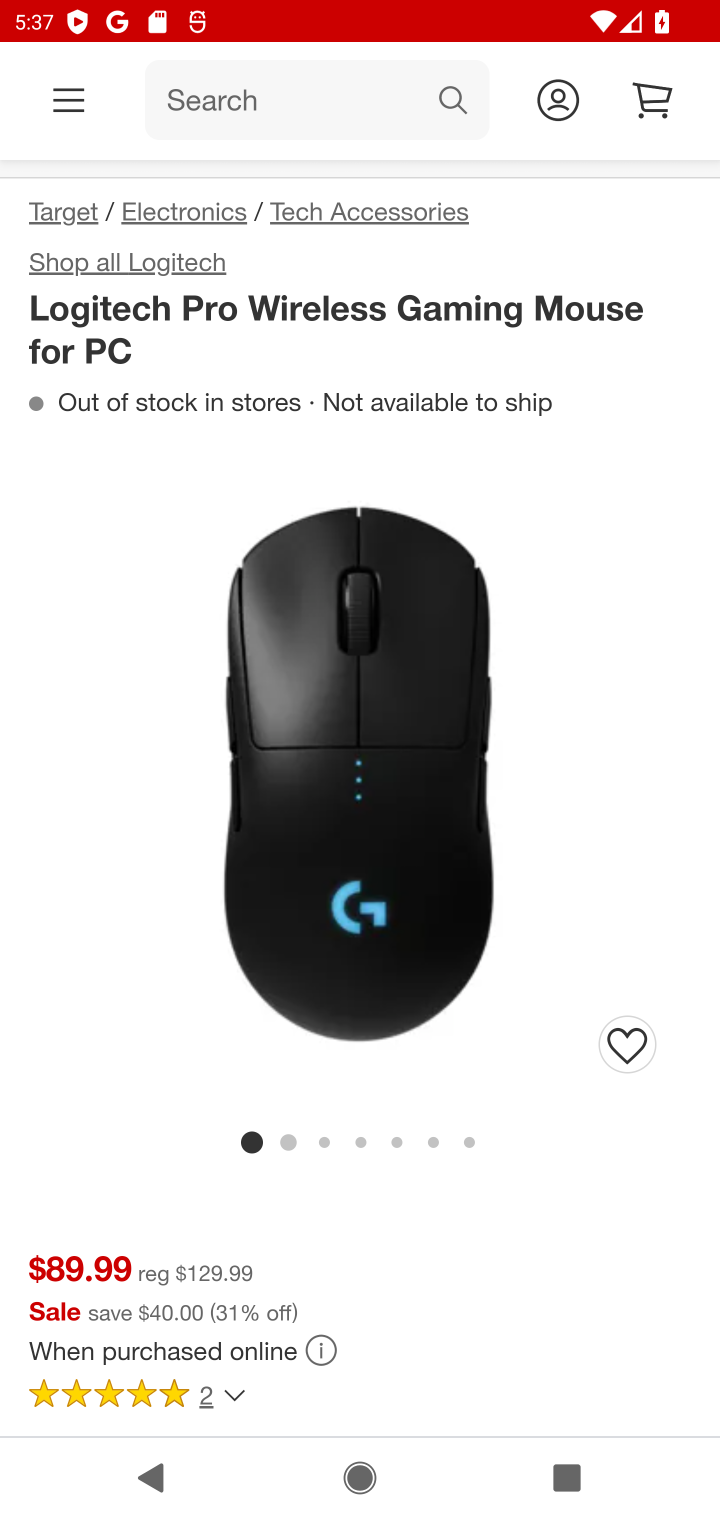
Step 26: drag from (448, 1051) to (427, 532)
Your task to perform on an android device: View the shopping cart on target.com. Add "logitech g pro" to the cart on target.com, then select checkout. Image 27: 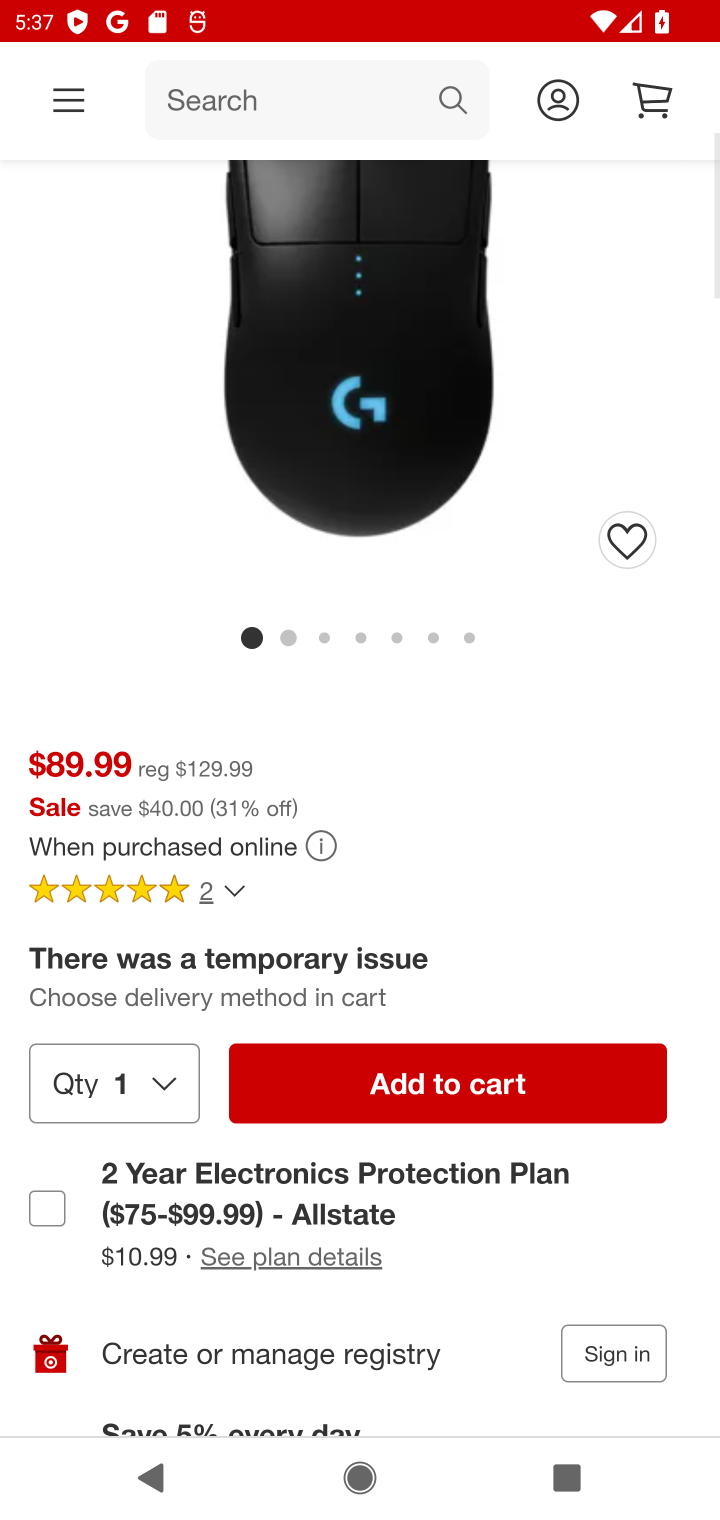
Step 27: click (463, 1094)
Your task to perform on an android device: View the shopping cart on target.com. Add "logitech g pro" to the cart on target.com, then select checkout. Image 28: 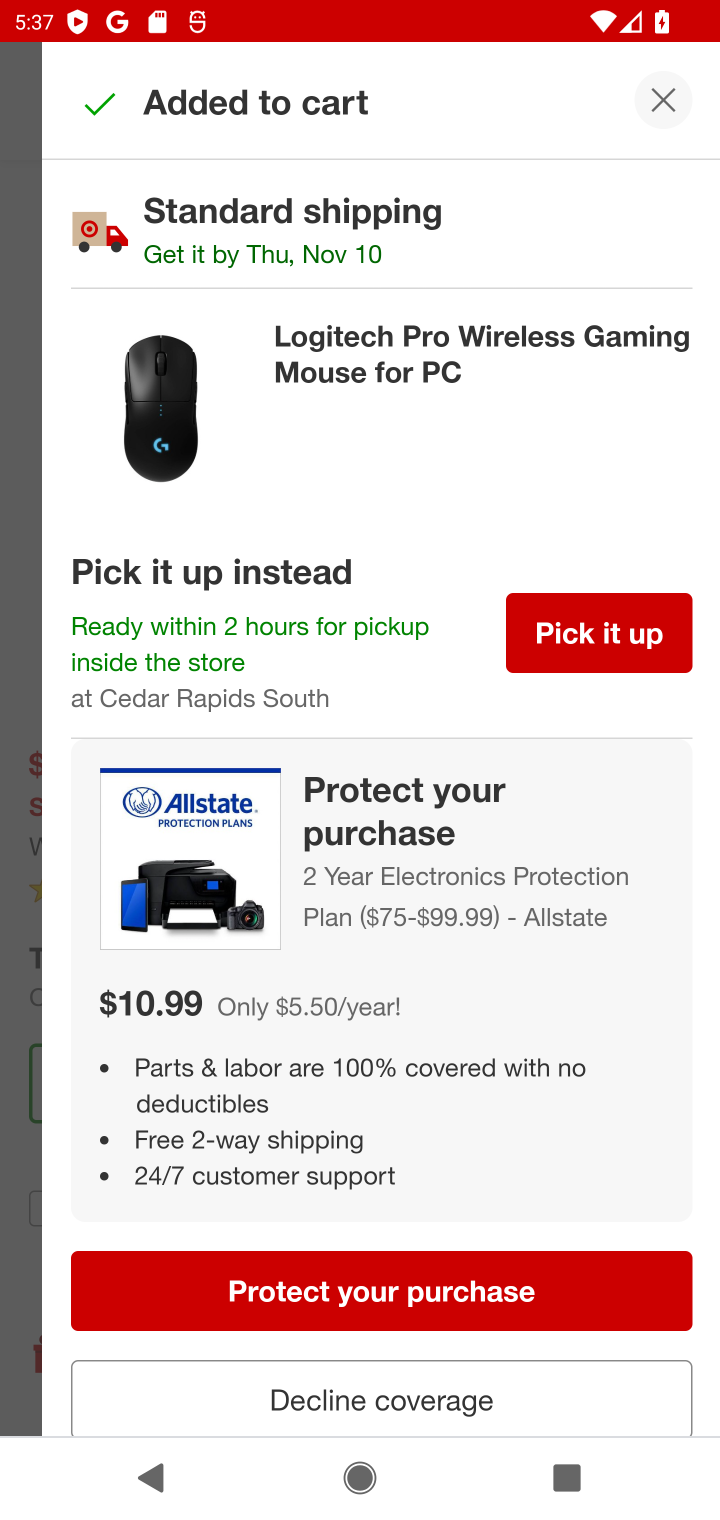
Step 28: click (505, 1416)
Your task to perform on an android device: View the shopping cart on target.com. Add "logitech g pro" to the cart on target.com, then select checkout. Image 29: 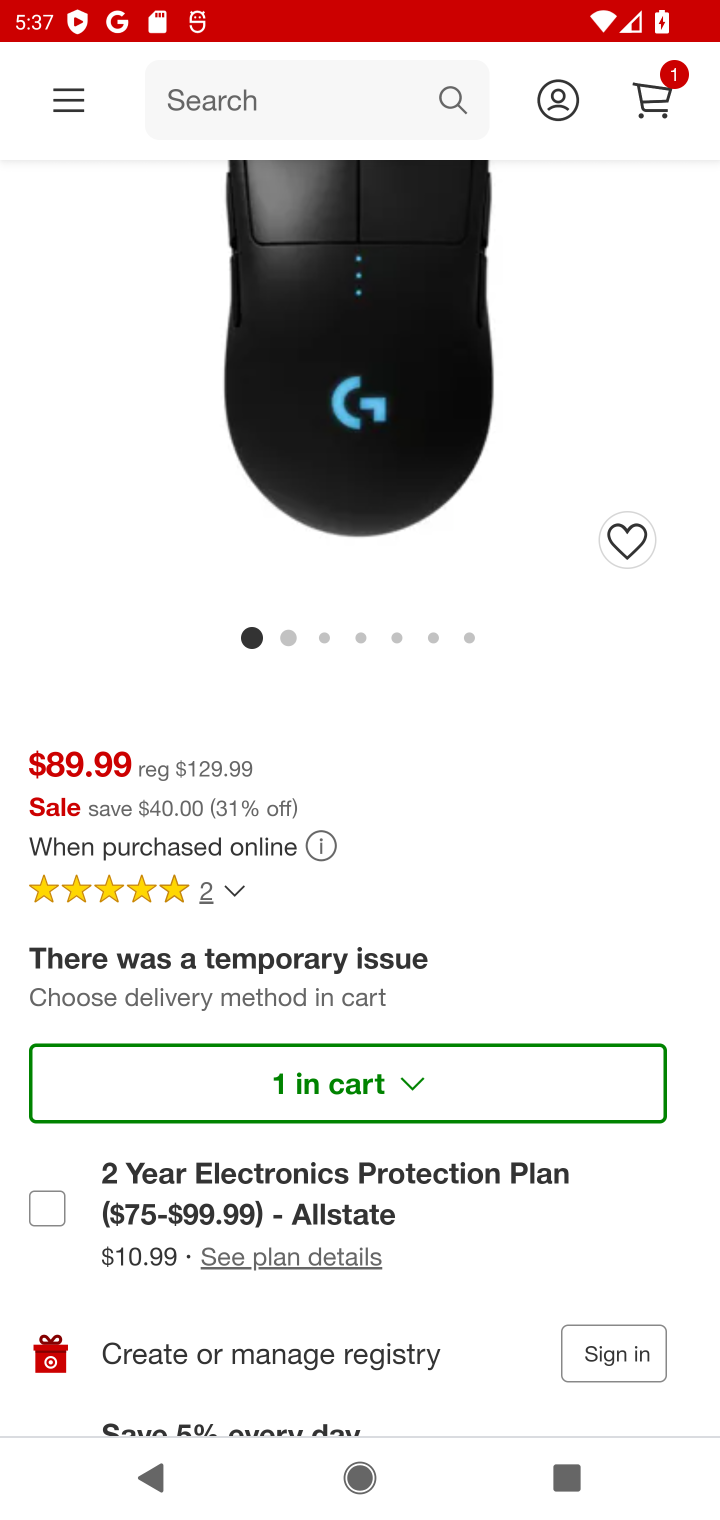
Step 29: drag from (349, 1209) to (348, 689)
Your task to perform on an android device: View the shopping cart on target.com. Add "logitech g pro" to the cart on target.com, then select checkout. Image 30: 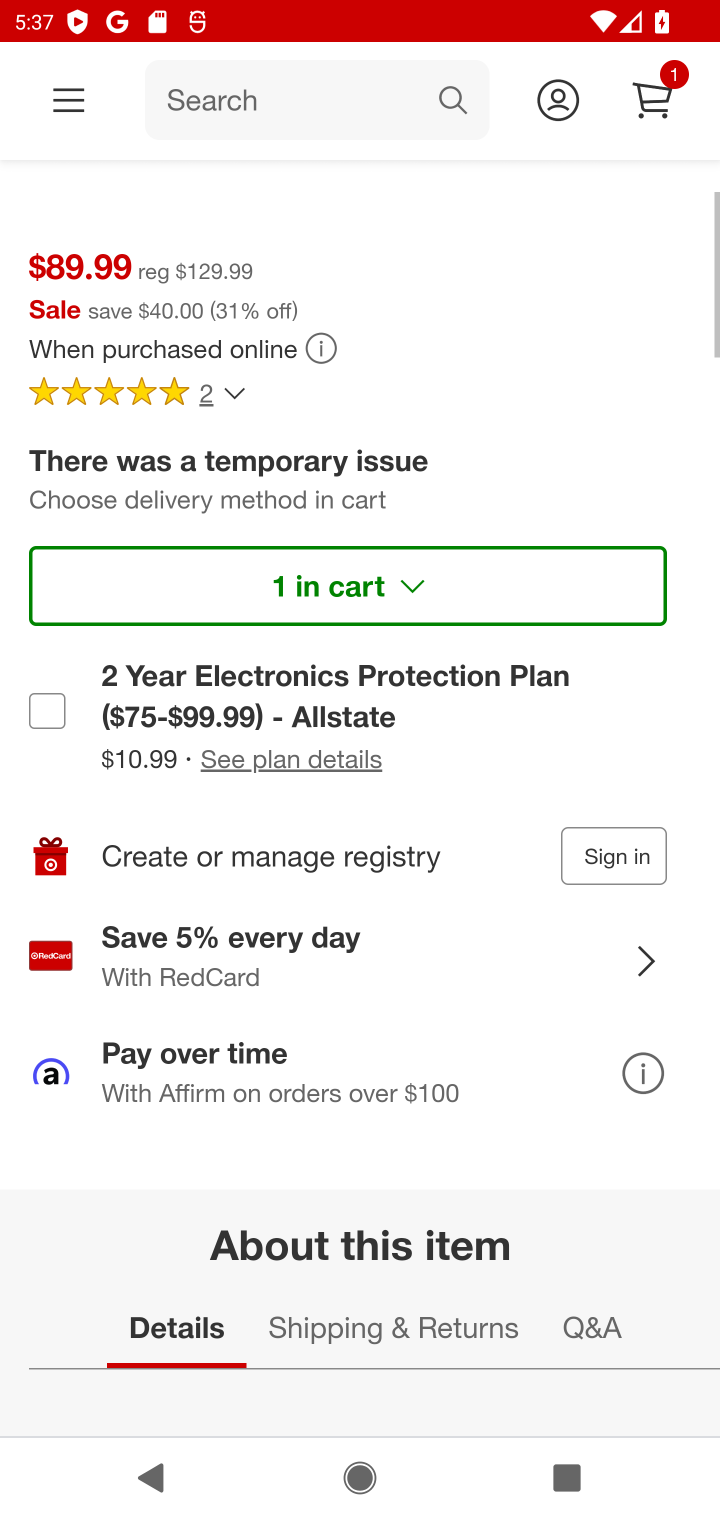
Step 30: drag from (500, 950) to (495, 575)
Your task to perform on an android device: View the shopping cart on target.com. Add "logitech g pro" to the cart on target.com, then select checkout. Image 31: 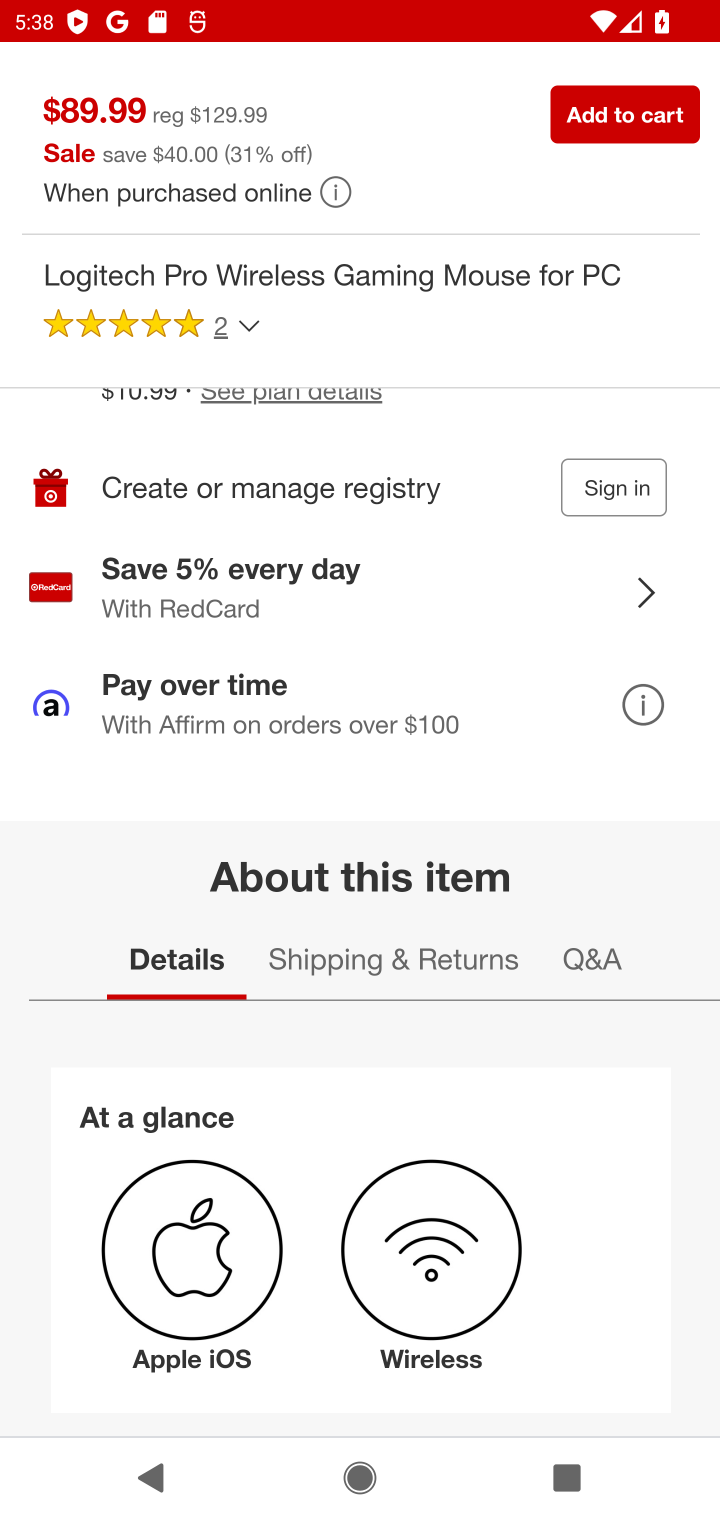
Step 31: click (587, 91)
Your task to perform on an android device: View the shopping cart on target.com. Add "logitech g pro" to the cart on target.com, then select checkout. Image 32: 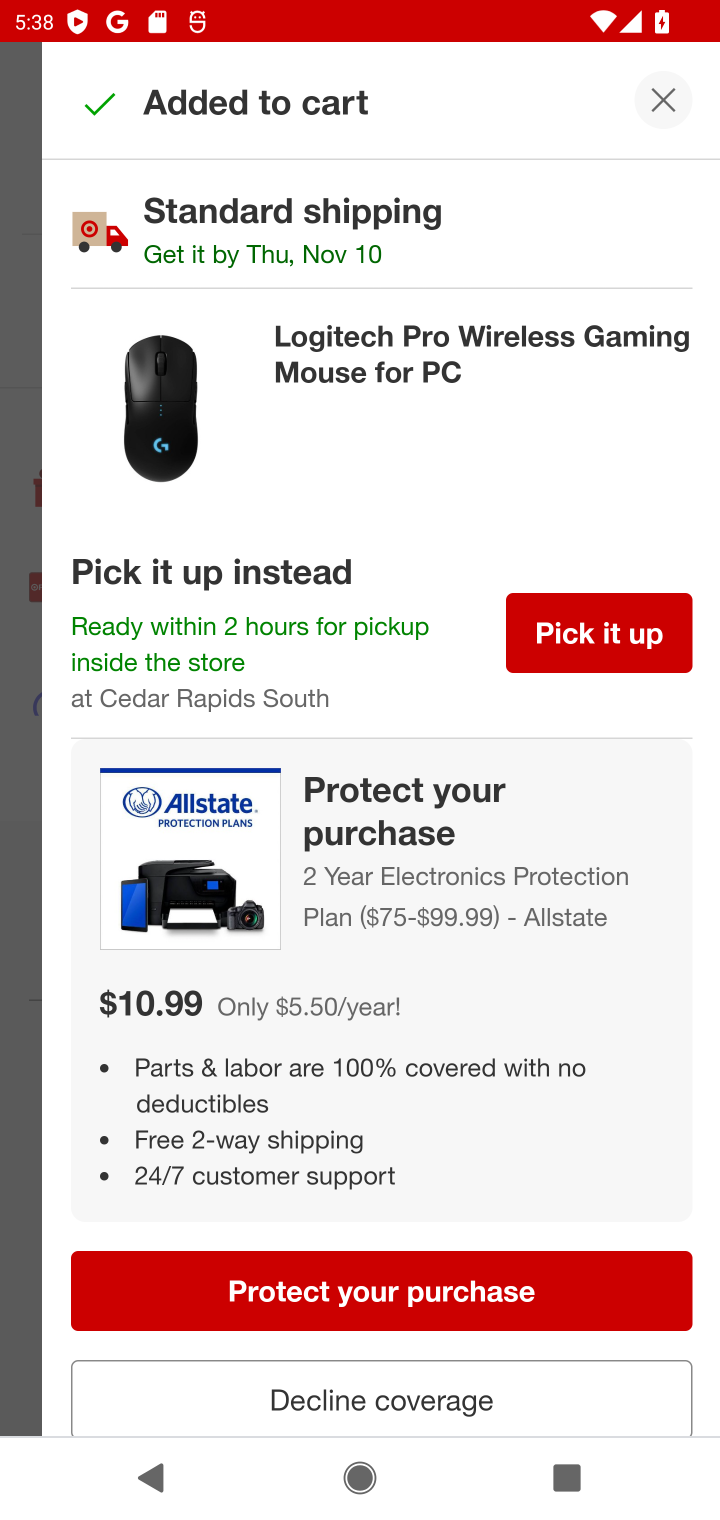
Step 32: click (465, 1407)
Your task to perform on an android device: View the shopping cart on target.com. Add "logitech g pro" to the cart on target.com, then select checkout. Image 33: 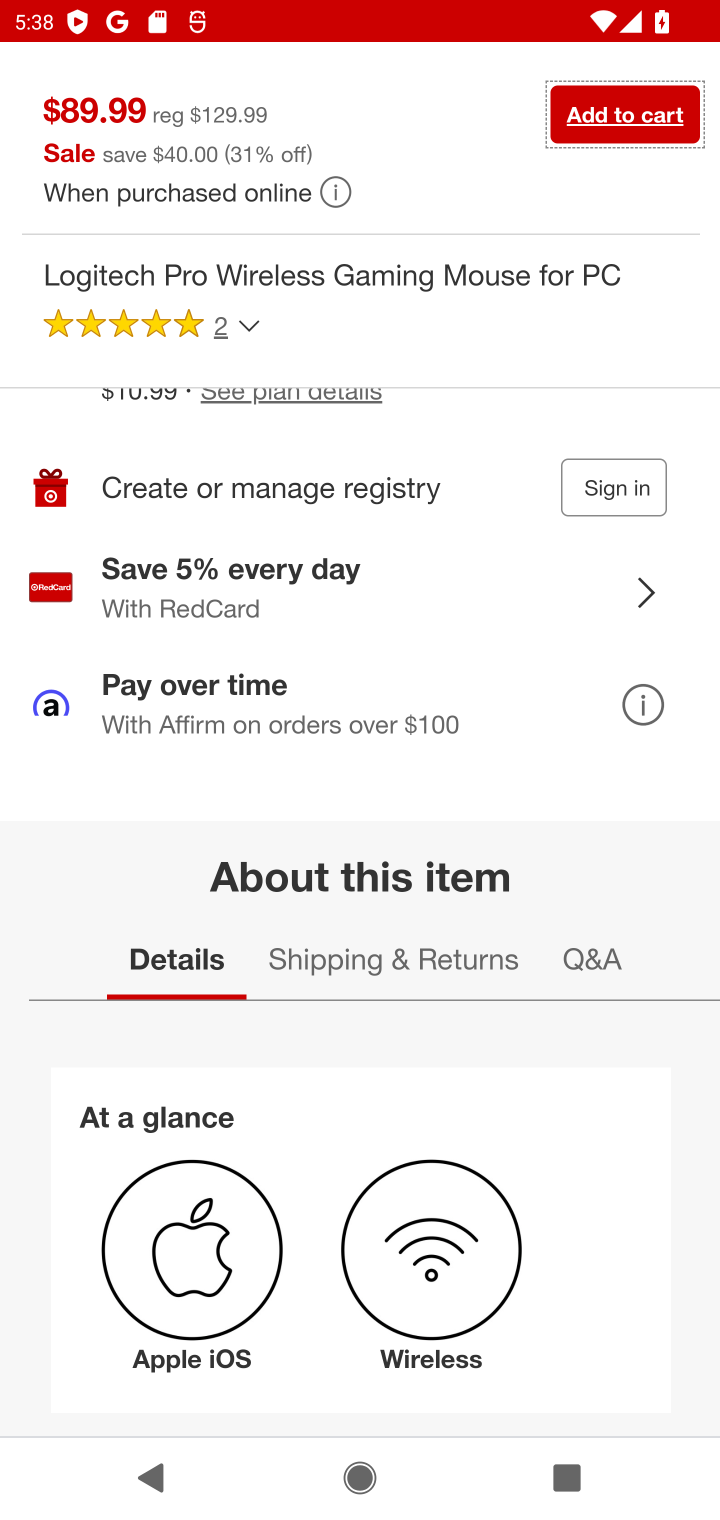
Step 33: drag from (319, 335) to (455, 1208)
Your task to perform on an android device: View the shopping cart on target.com. Add "logitech g pro" to the cart on target.com, then select checkout. Image 34: 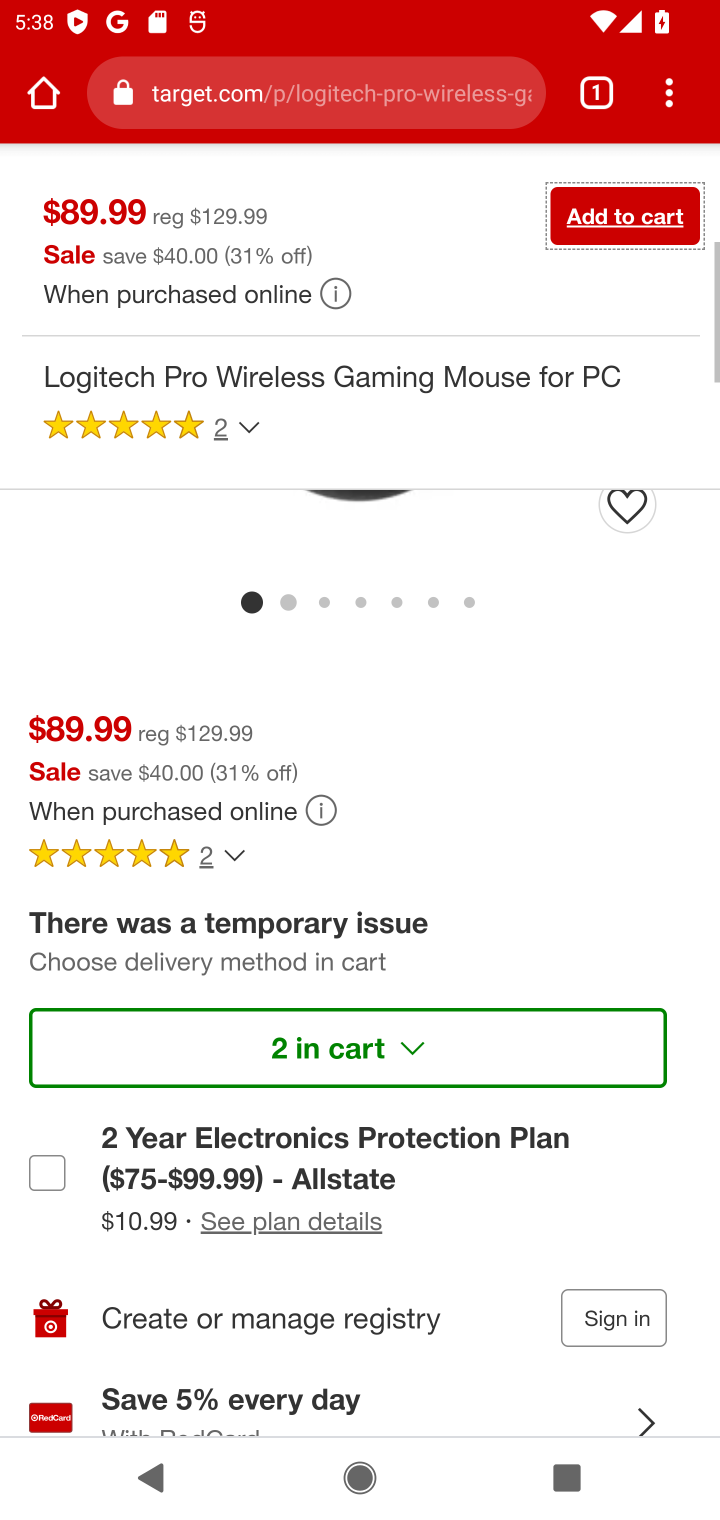
Step 34: drag from (402, 861) to (424, 1299)
Your task to perform on an android device: View the shopping cart on target.com. Add "logitech g pro" to the cart on target.com, then select checkout. Image 35: 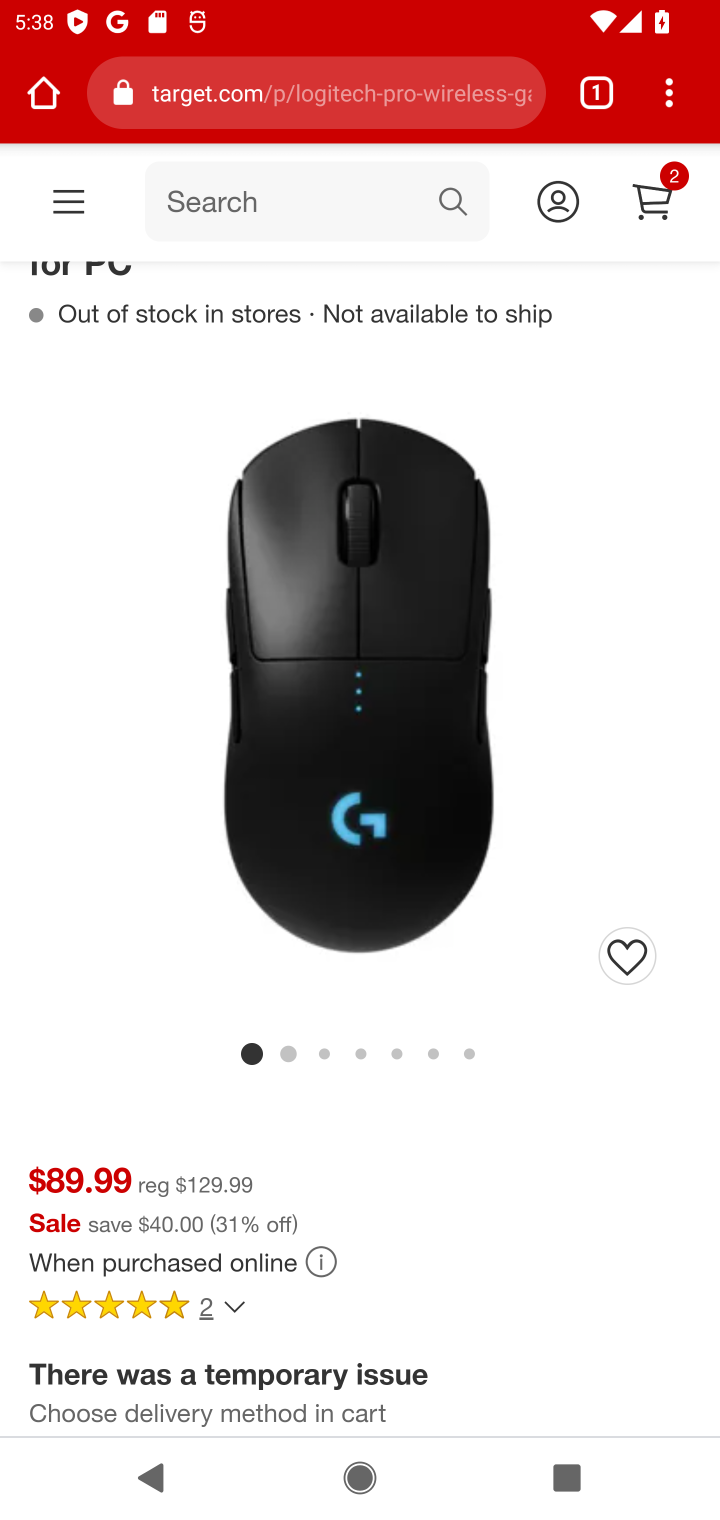
Step 35: click (631, 204)
Your task to perform on an android device: View the shopping cart on target.com. Add "logitech g pro" to the cart on target.com, then select checkout. Image 36: 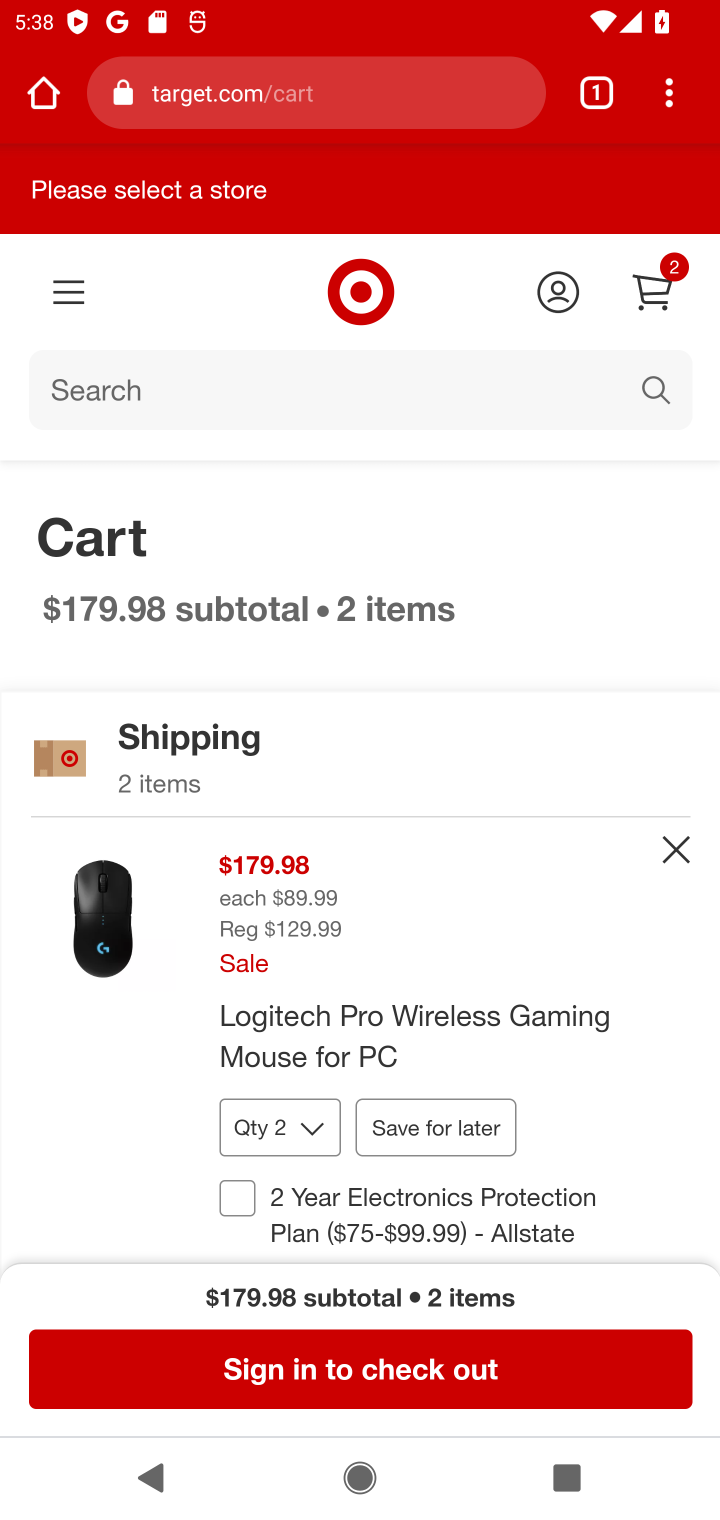
Step 36: drag from (473, 1211) to (354, 603)
Your task to perform on an android device: View the shopping cart on target.com. Add "logitech g pro" to the cart on target.com, then select checkout. Image 37: 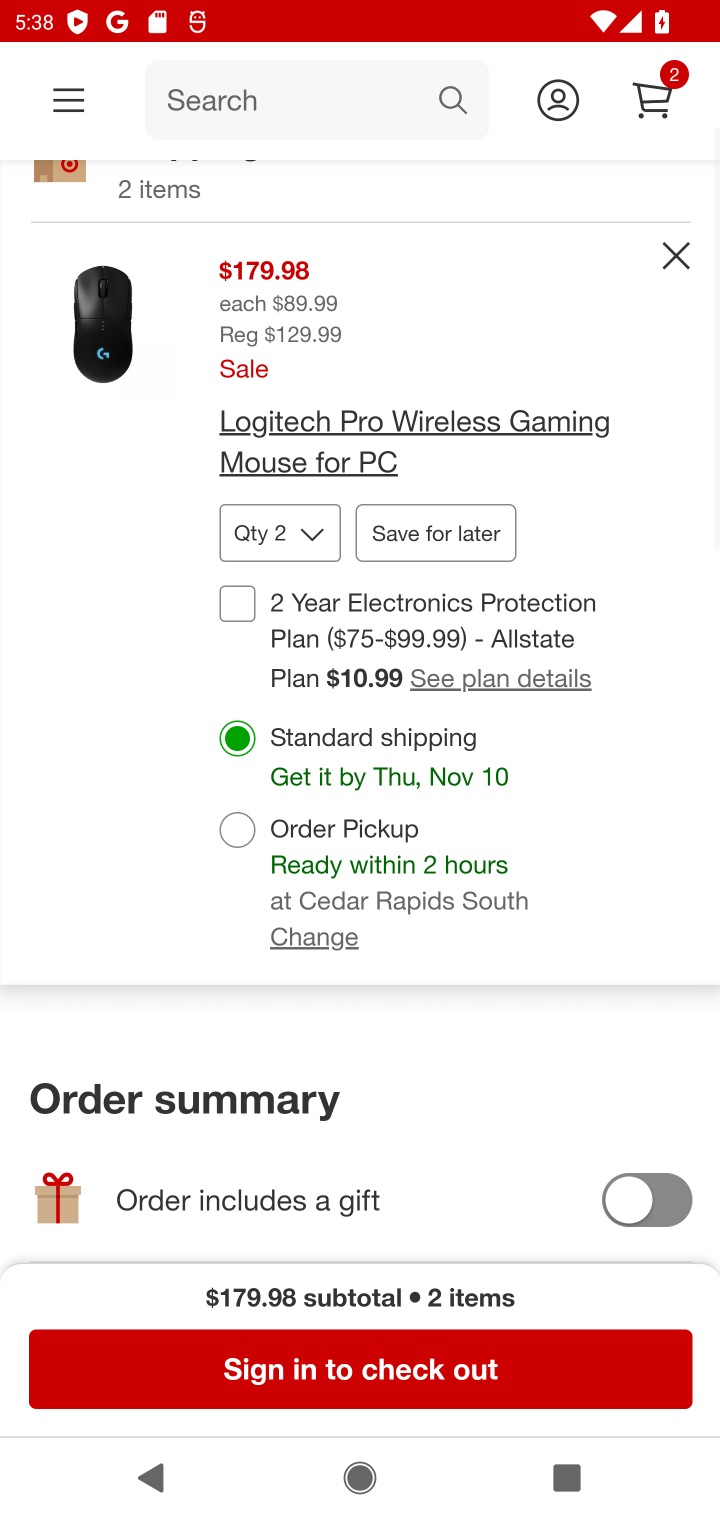
Step 37: click (384, 1349)
Your task to perform on an android device: View the shopping cart on target.com. Add "logitech g pro" to the cart on target.com, then select checkout. Image 38: 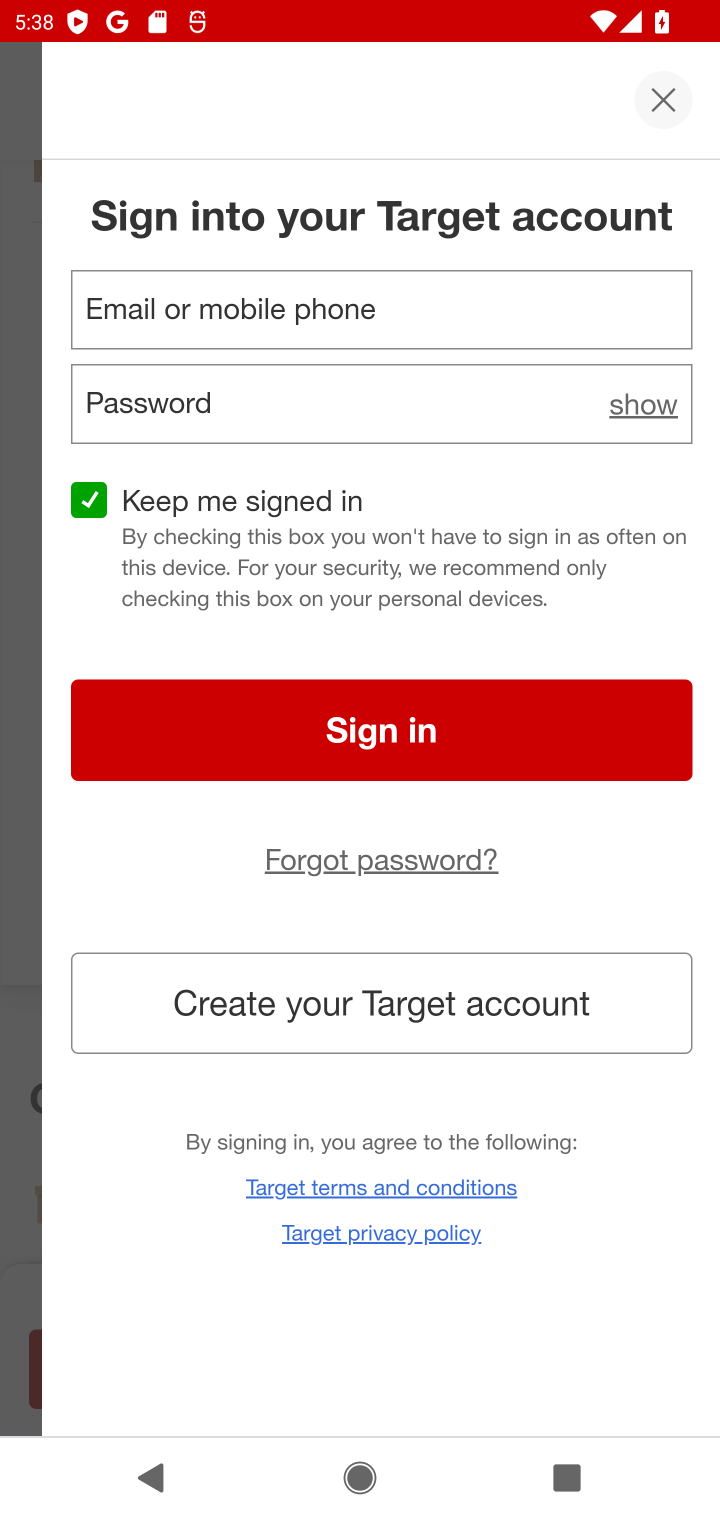
Step 38: click (673, 115)
Your task to perform on an android device: View the shopping cart on target.com. Add "logitech g pro" to the cart on target.com, then select checkout. Image 39: 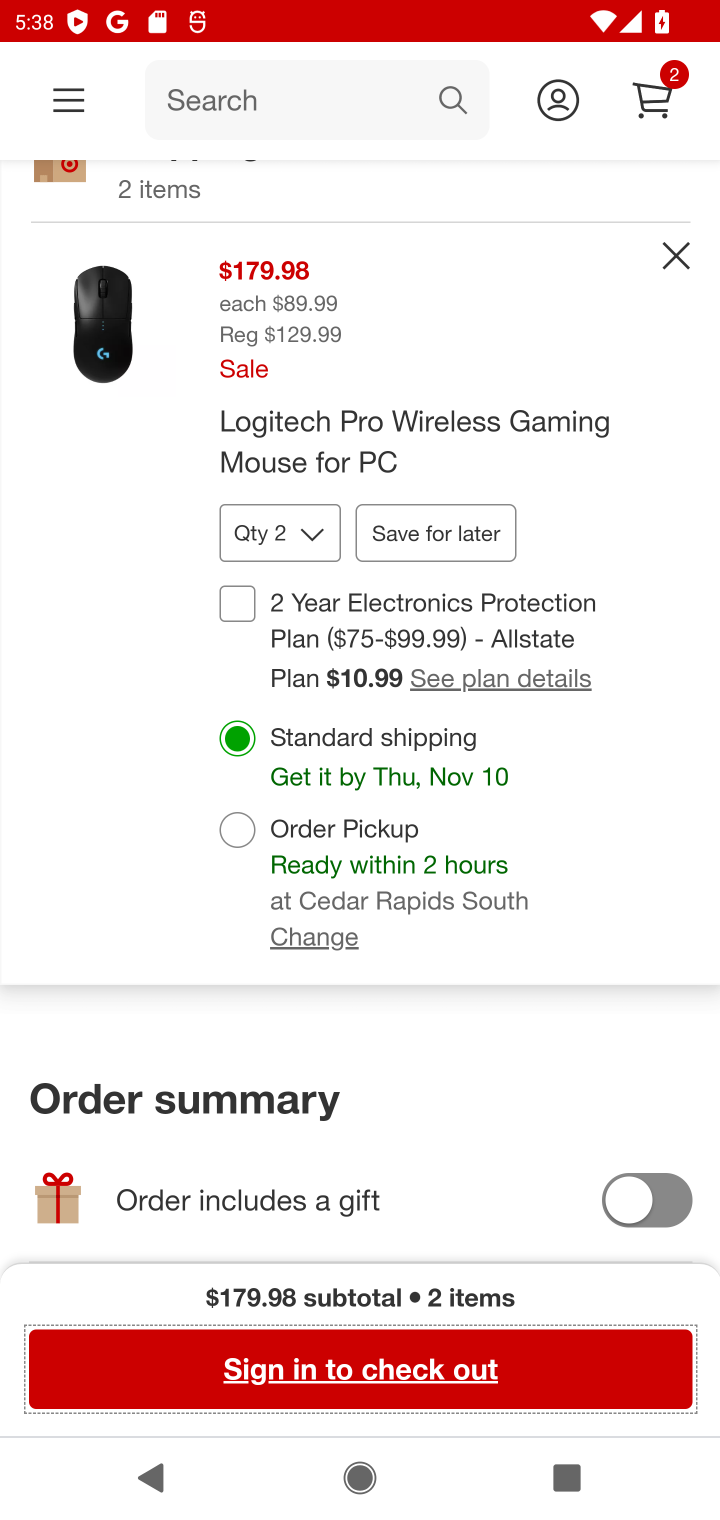
Step 39: click (616, 1338)
Your task to perform on an android device: View the shopping cart on target.com. Add "logitech g pro" to the cart on target.com, then select checkout. Image 40: 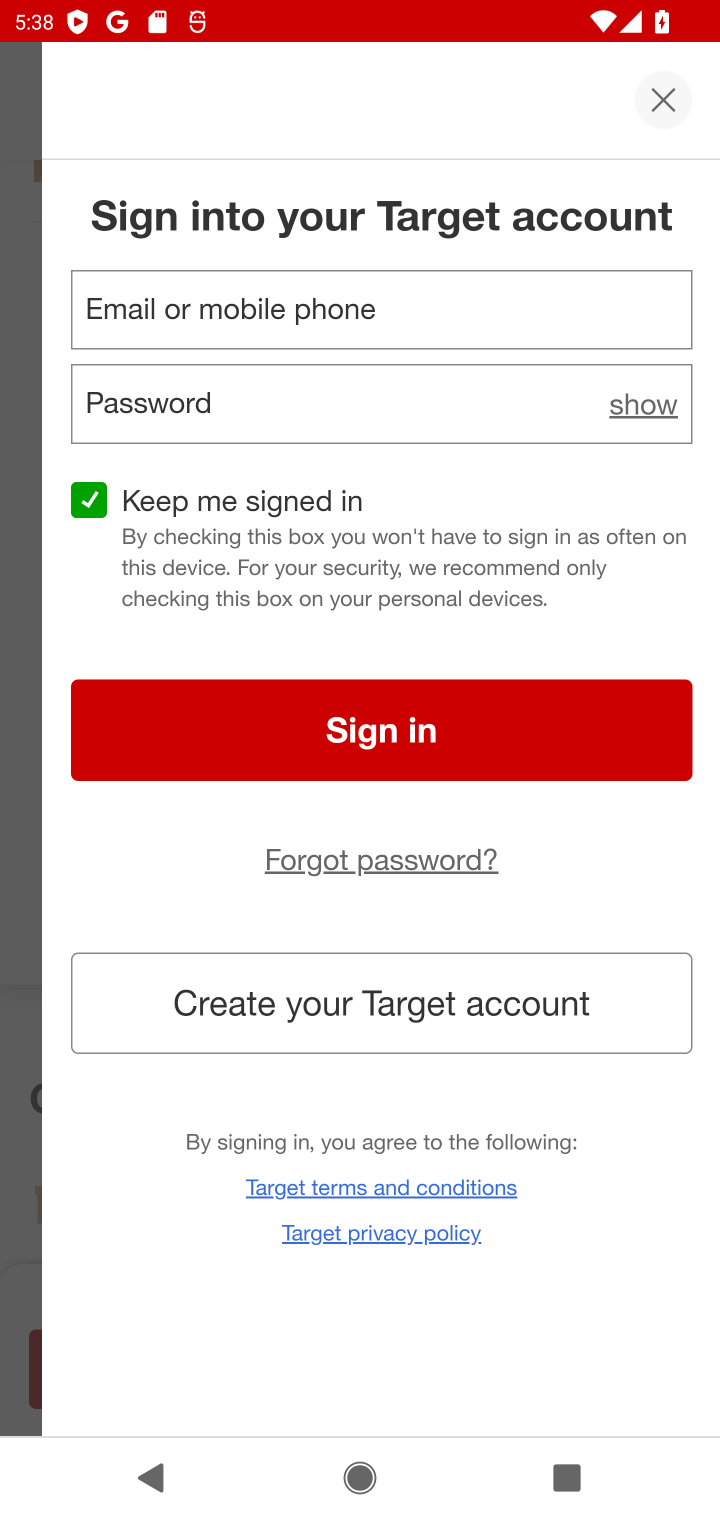
Step 40: click (648, 123)
Your task to perform on an android device: View the shopping cart on target.com. Add "logitech g pro" to the cart on target.com, then select checkout. Image 41: 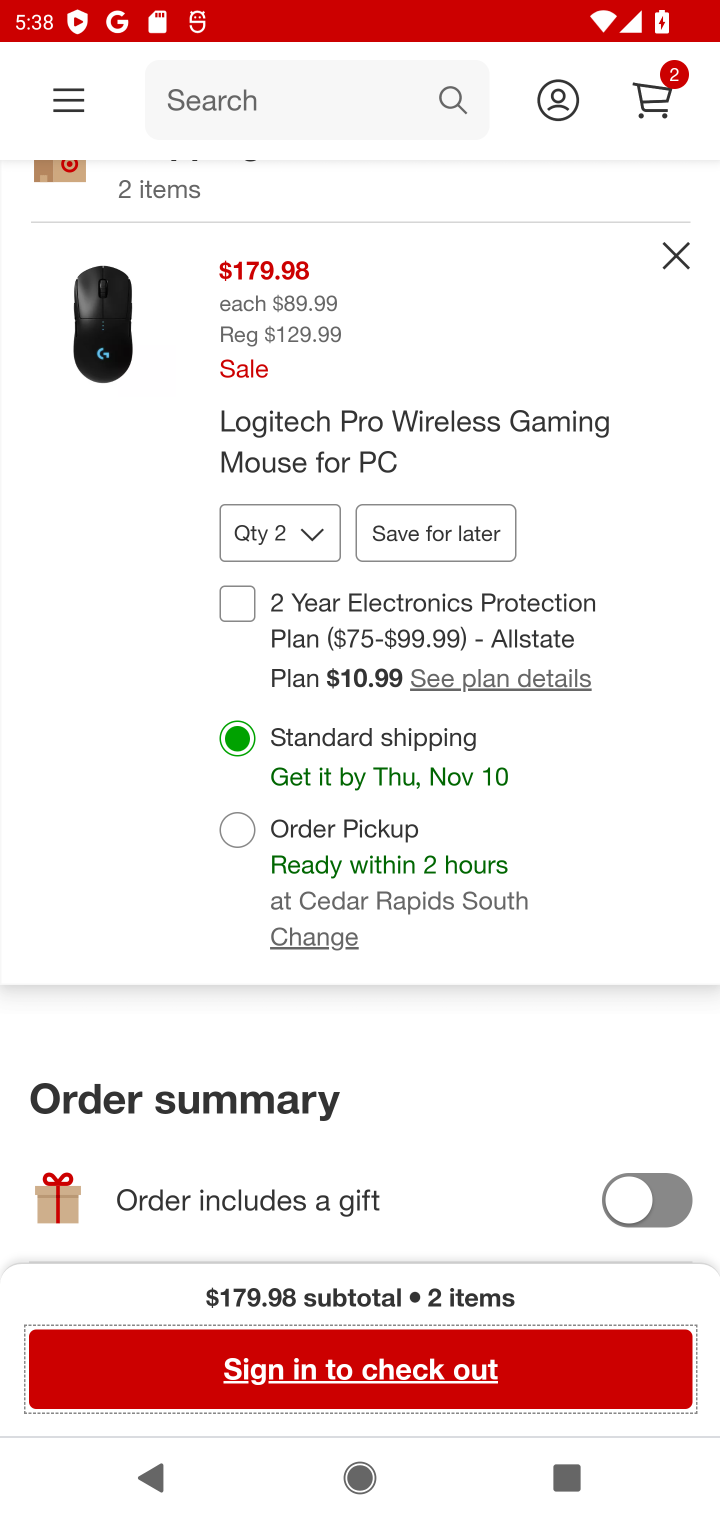
Step 41: click (329, 512)
Your task to perform on an android device: View the shopping cart on target.com. Add "logitech g pro" to the cart on target.com, then select checkout. Image 42: 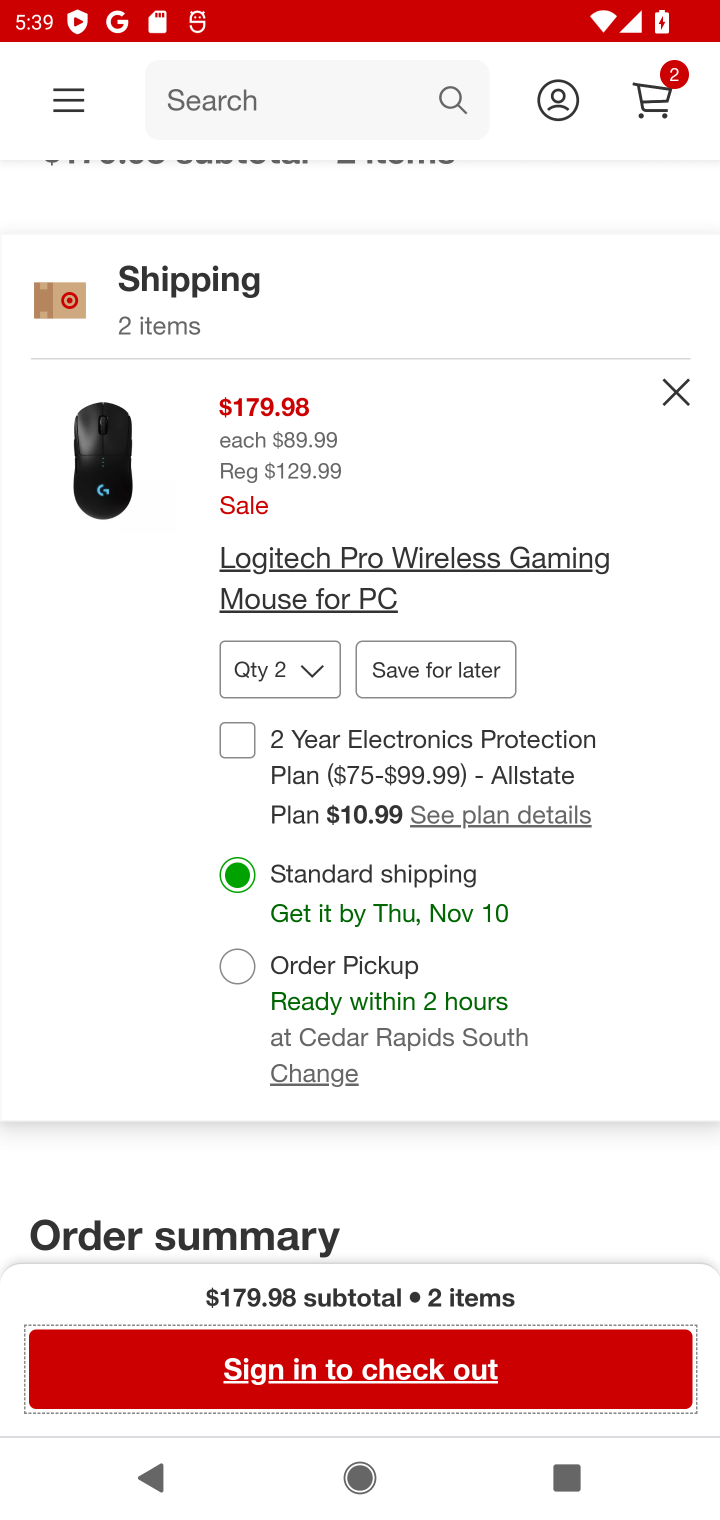
Step 42: drag from (406, 831) to (432, 447)
Your task to perform on an android device: View the shopping cart on target.com. Add "logitech g pro" to the cart on target.com, then select checkout. Image 43: 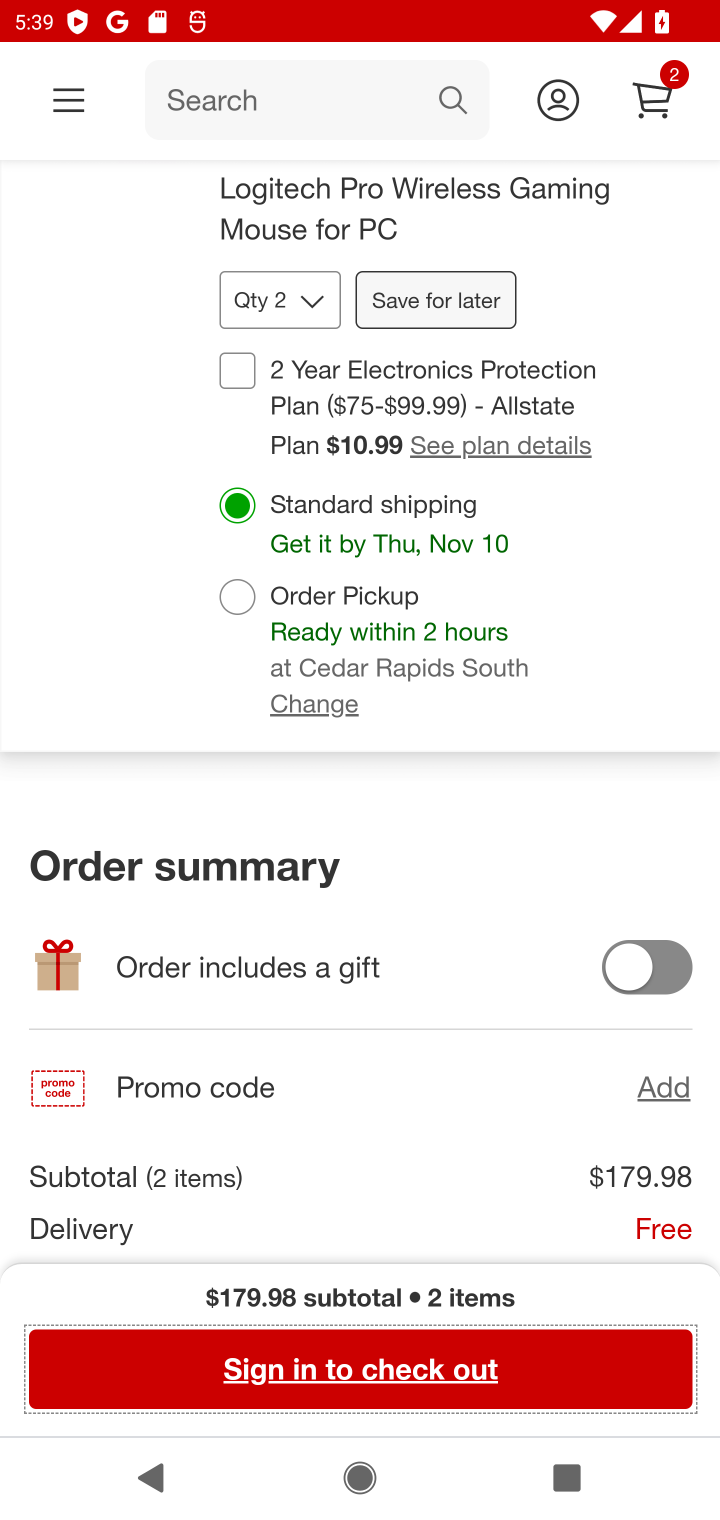
Step 43: drag from (430, 965) to (413, 319)
Your task to perform on an android device: View the shopping cart on target.com. Add "logitech g pro" to the cart on target.com, then select checkout. Image 44: 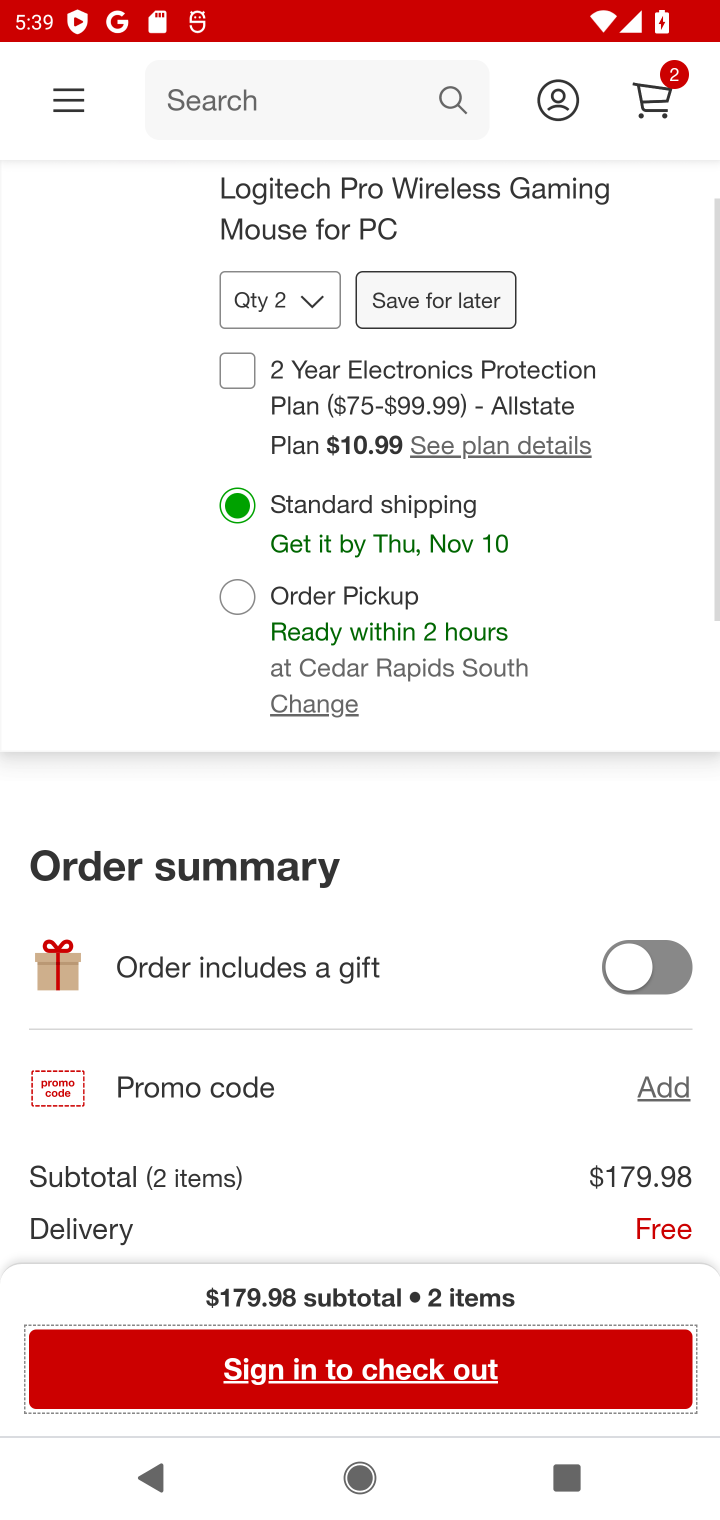
Step 44: click (399, 393)
Your task to perform on an android device: View the shopping cart on target.com. Add "logitech g pro" to the cart on target.com, then select checkout. Image 45: 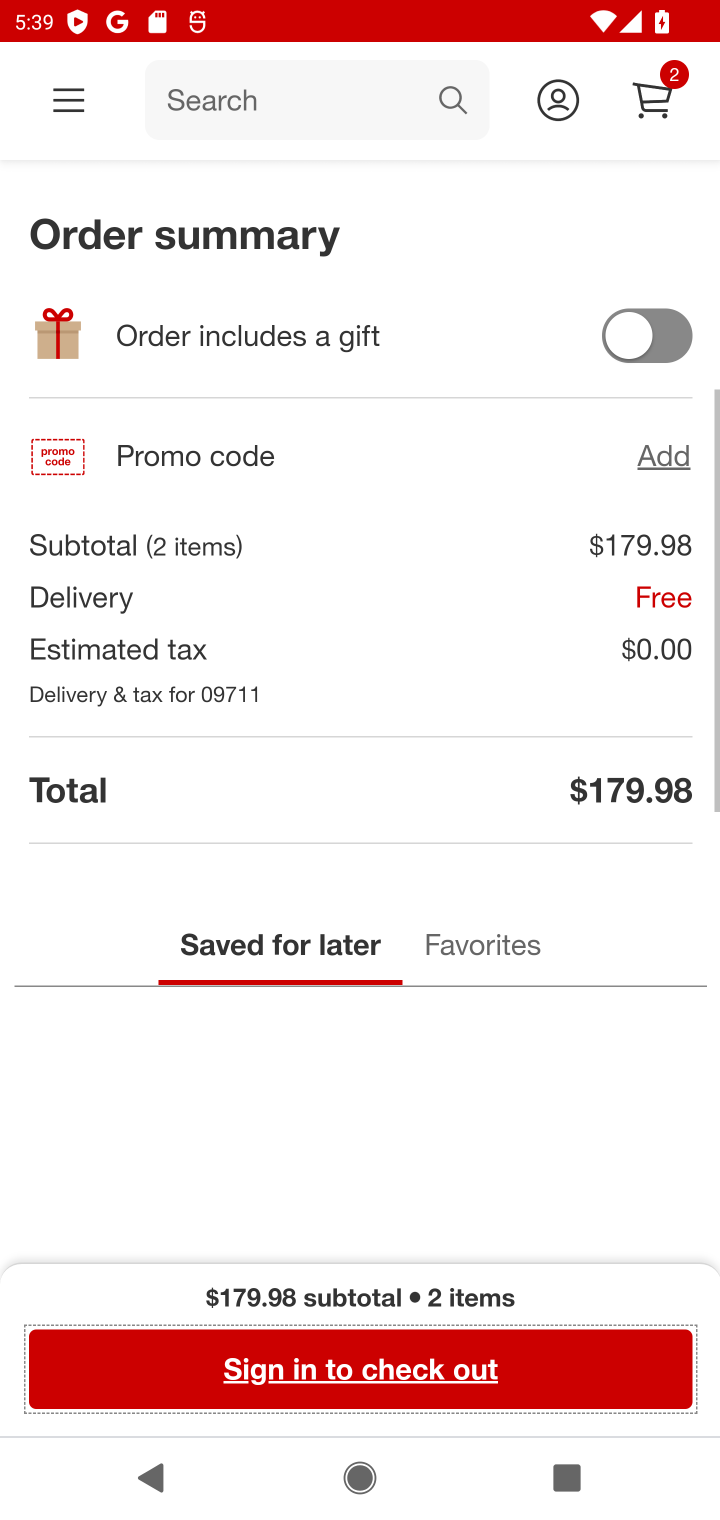
Step 45: click (419, 470)
Your task to perform on an android device: View the shopping cart on target.com. Add "logitech g pro" to the cart on target.com, then select checkout. Image 46: 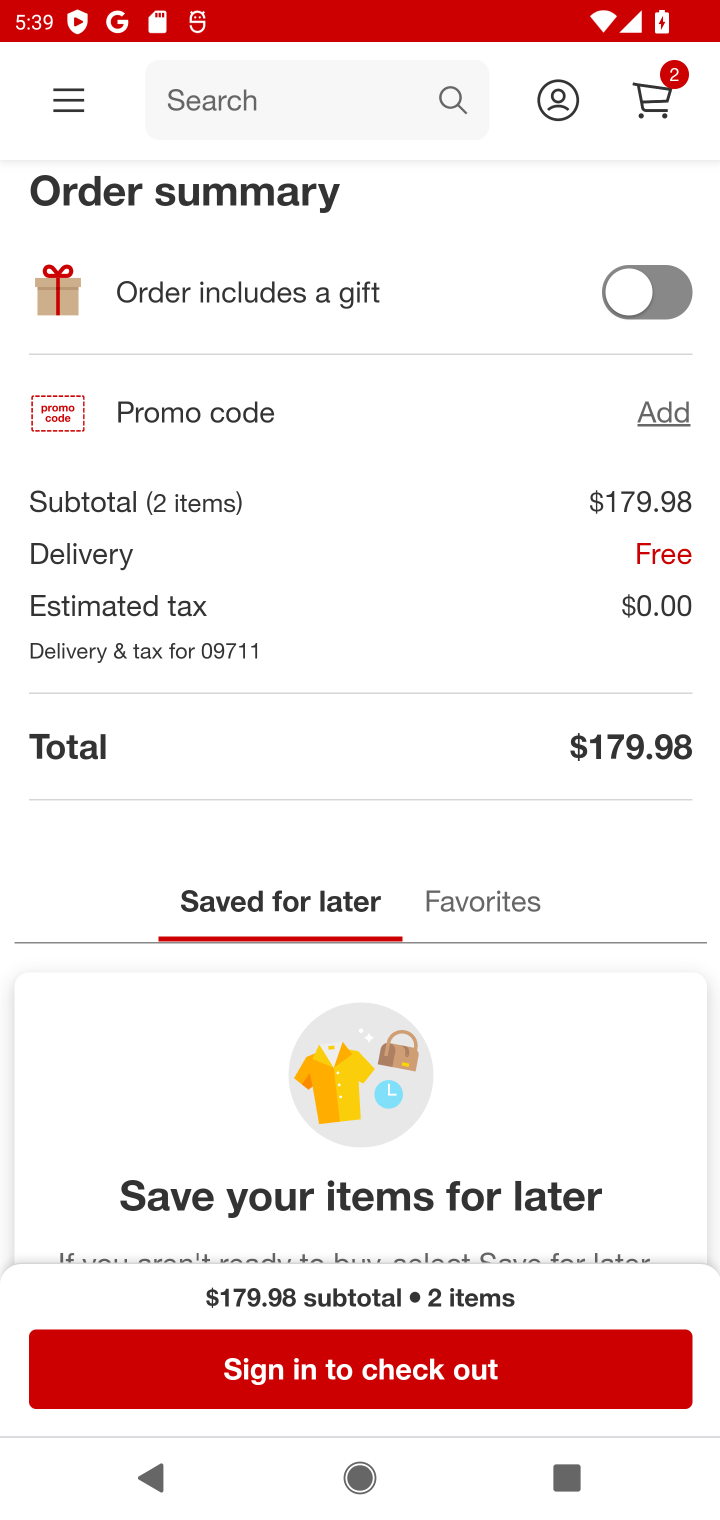
Step 46: task complete